Your task to perform on an android device: Go to ESPN.com Image 0: 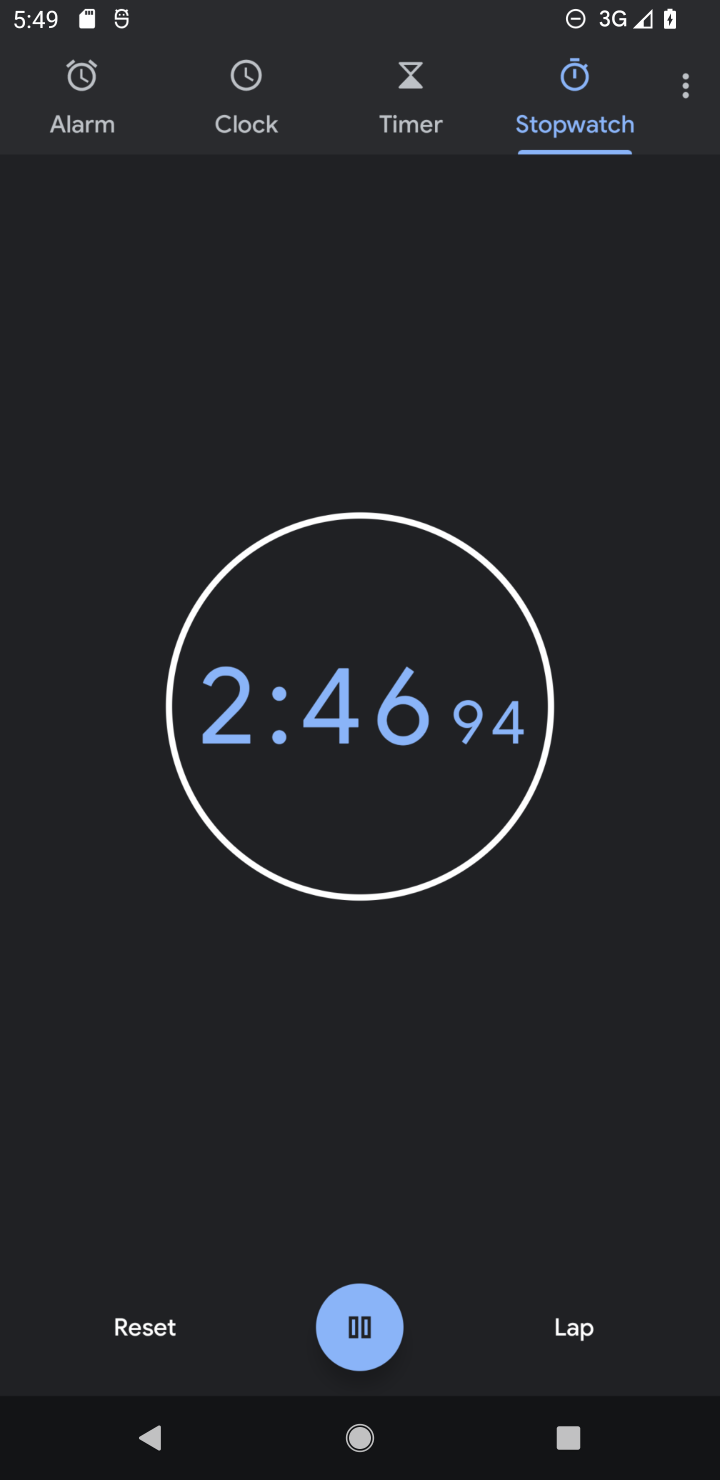
Step 0: drag from (469, 856) to (568, 472)
Your task to perform on an android device: Go to ESPN.com Image 1: 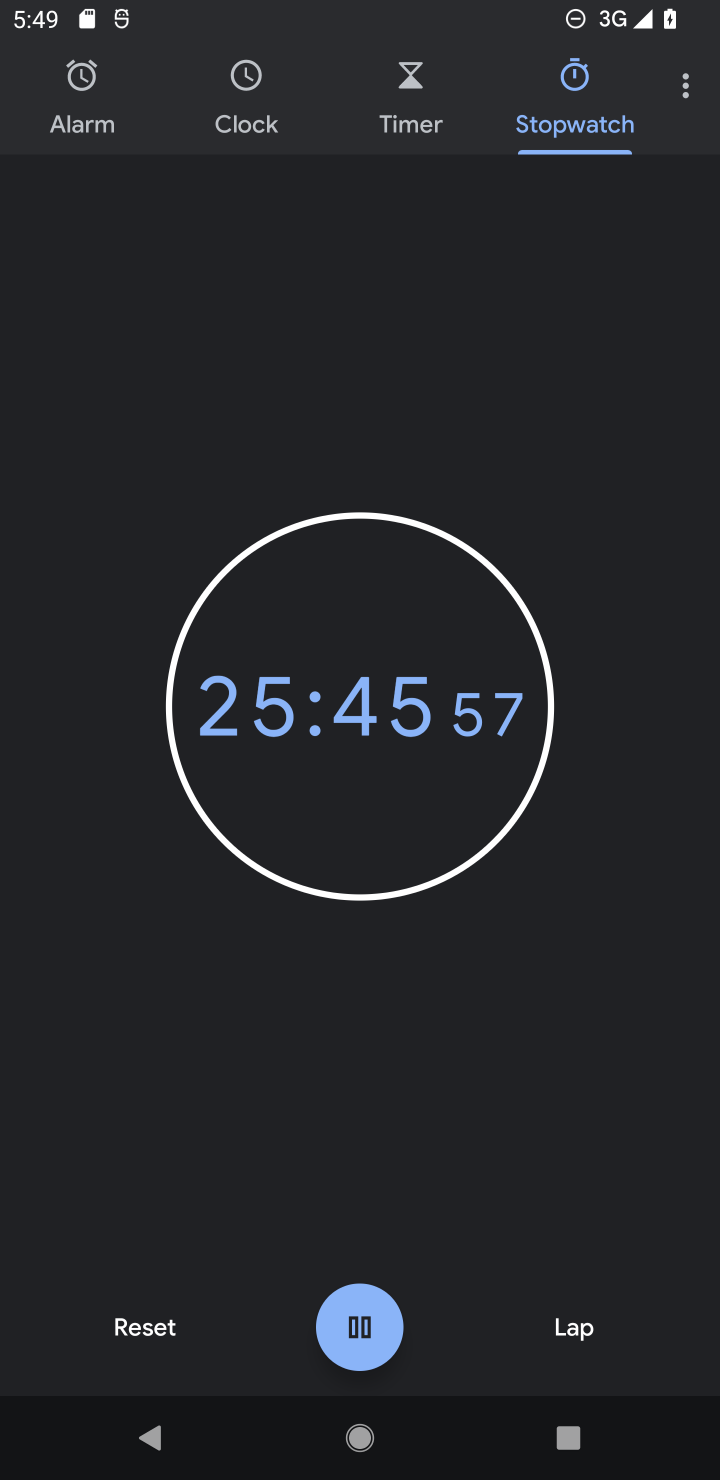
Step 1: press home button
Your task to perform on an android device: Go to ESPN.com Image 2: 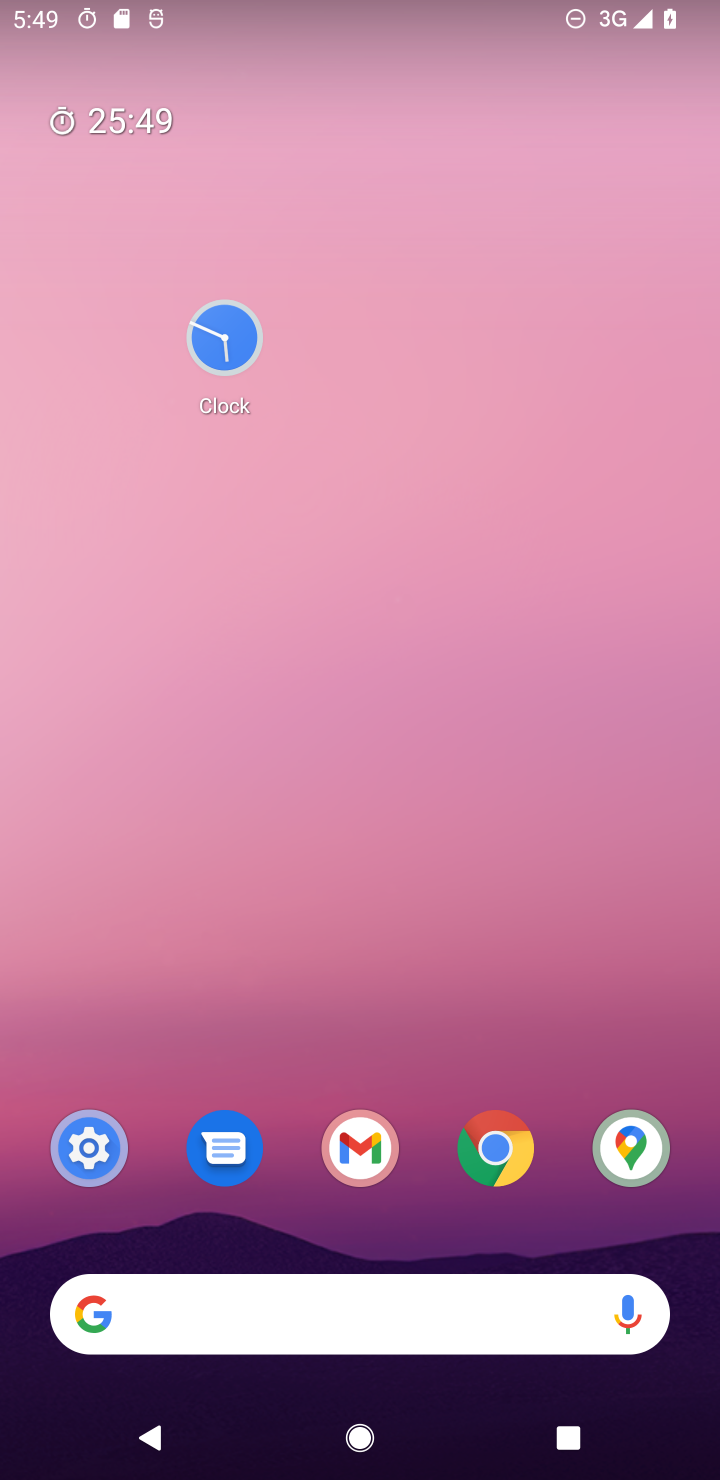
Step 2: drag from (317, 1118) to (332, 457)
Your task to perform on an android device: Go to ESPN.com Image 3: 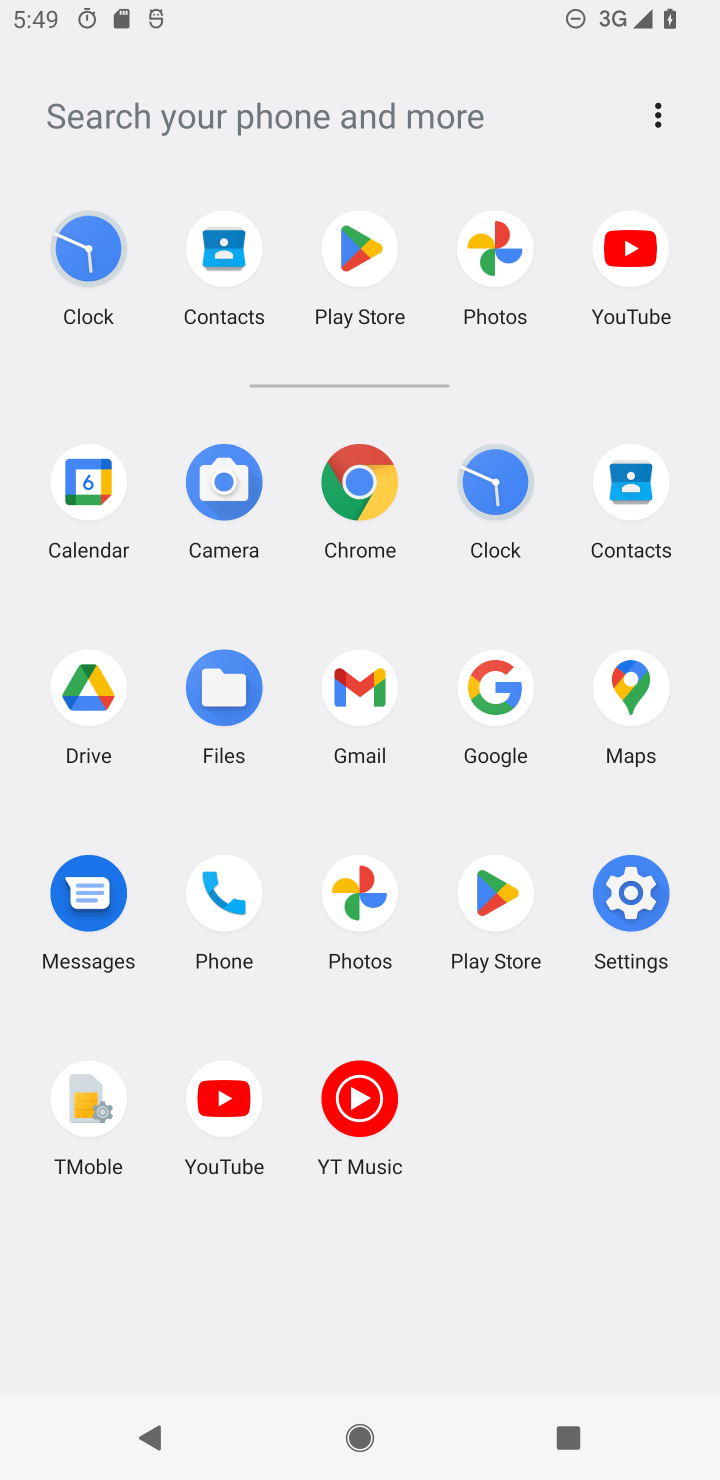
Step 3: drag from (483, 1216) to (585, 419)
Your task to perform on an android device: Go to ESPN.com Image 4: 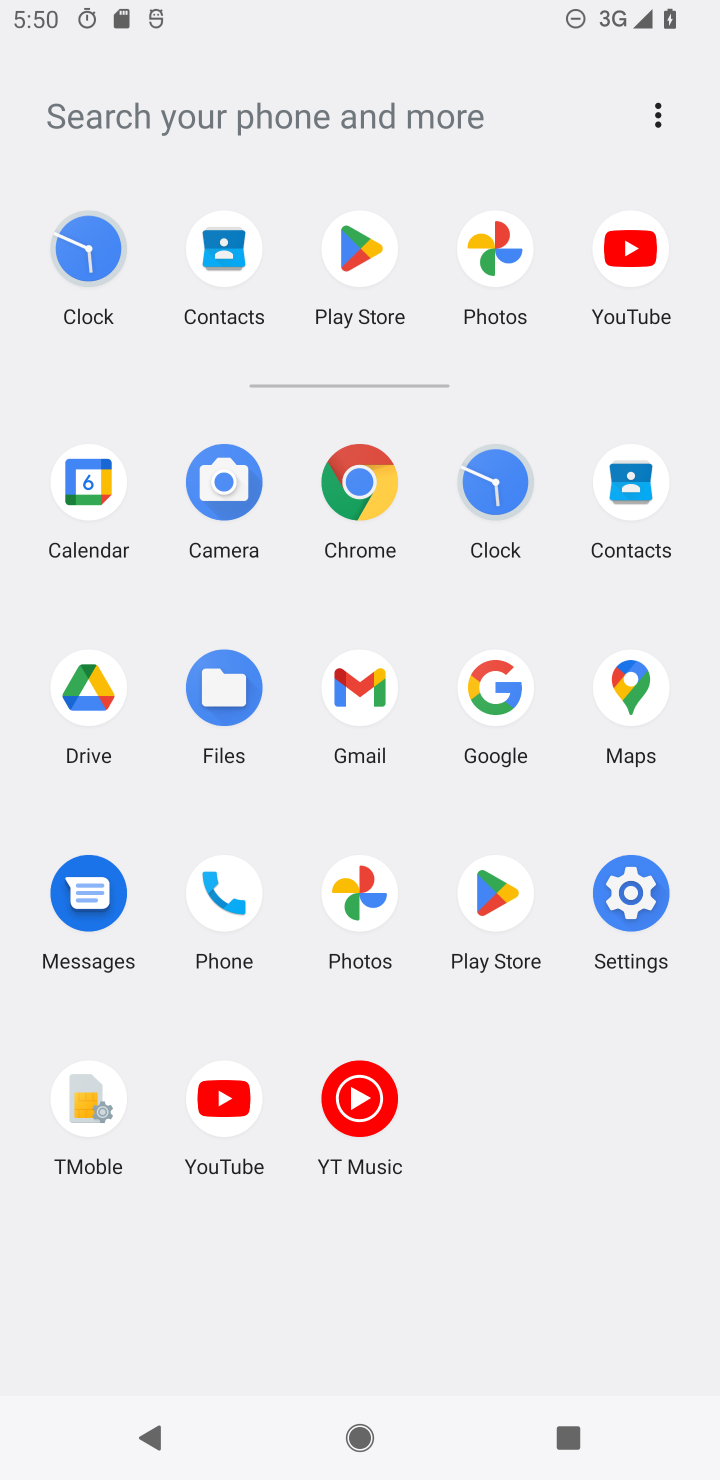
Step 4: click (356, 479)
Your task to perform on an android device: Go to ESPN.com Image 5: 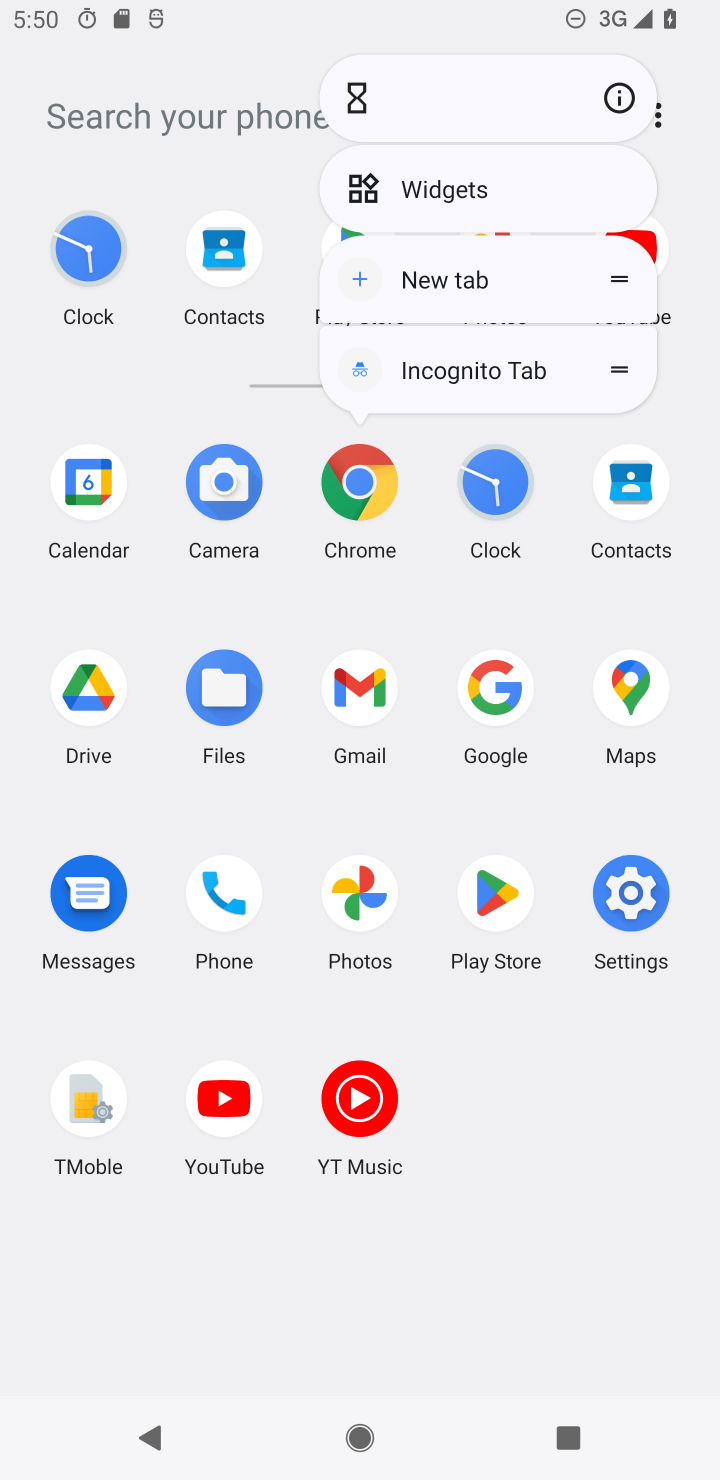
Step 5: click (617, 96)
Your task to perform on an android device: Go to ESPN.com Image 6: 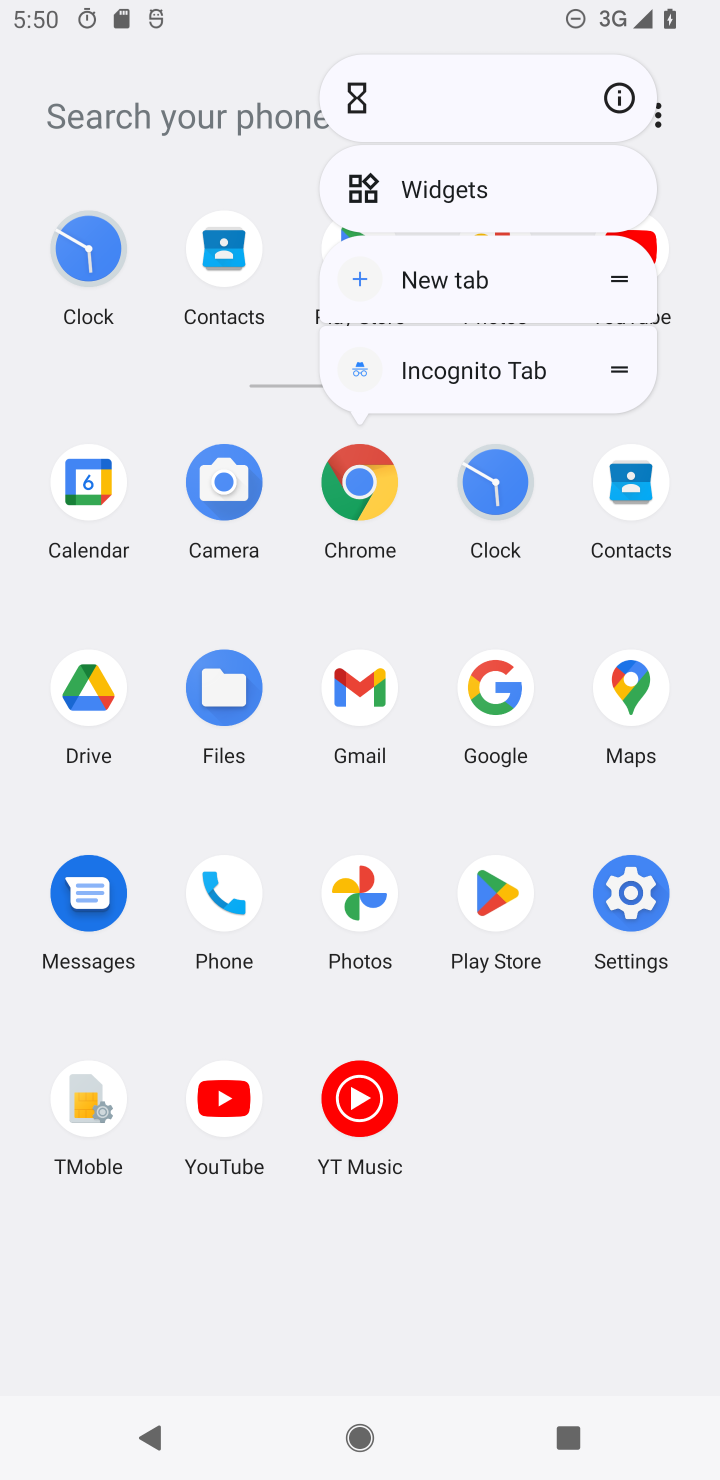
Step 6: click (358, 486)
Your task to perform on an android device: Go to ESPN.com Image 7: 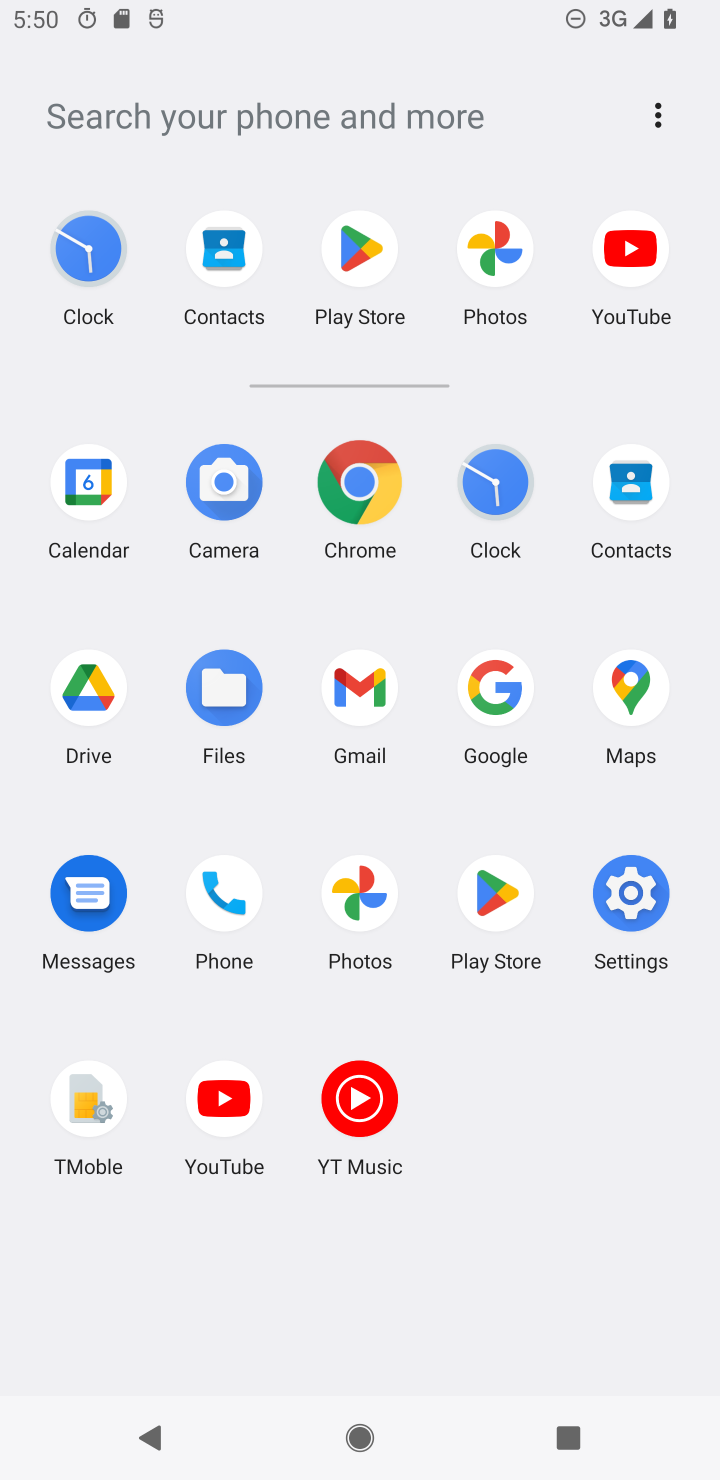
Step 7: click (366, 483)
Your task to perform on an android device: Go to ESPN.com Image 8: 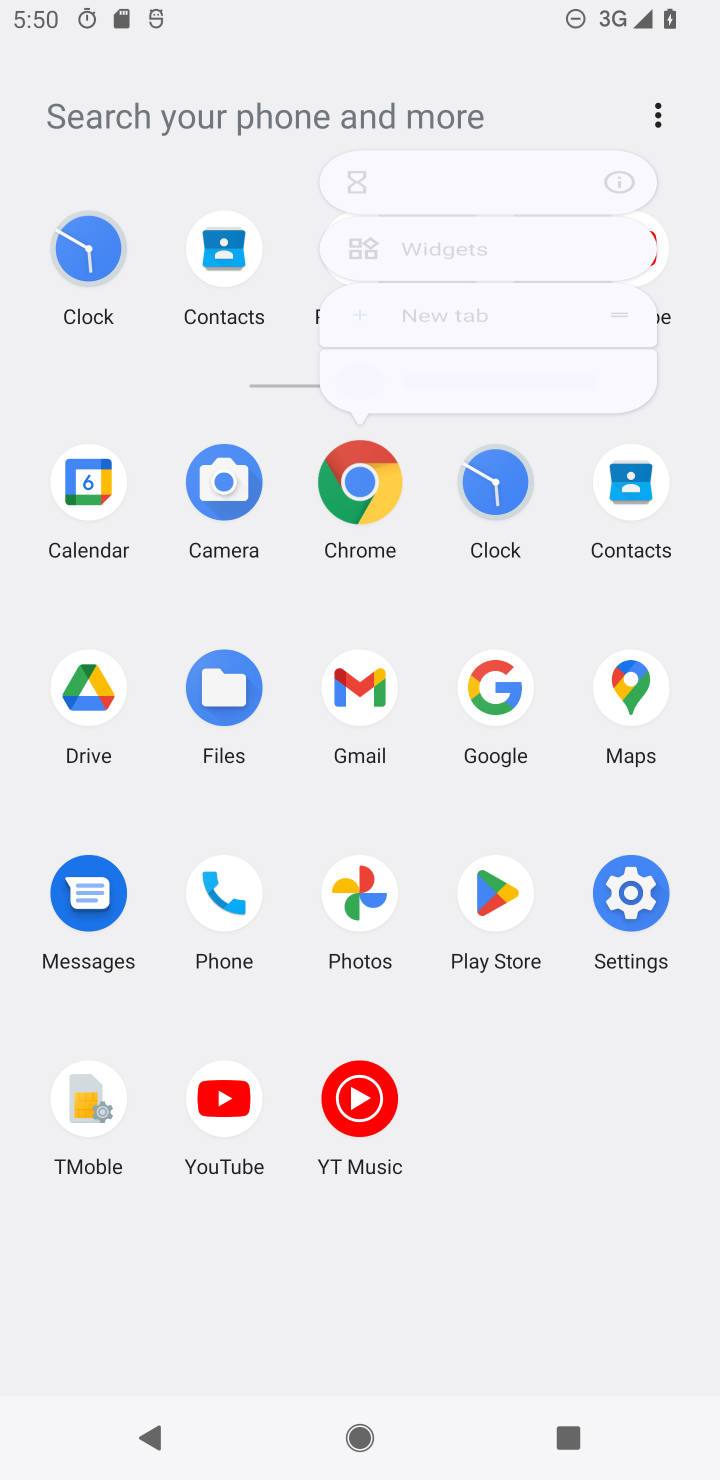
Step 8: click (366, 483)
Your task to perform on an android device: Go to ESPN.com Image 9: 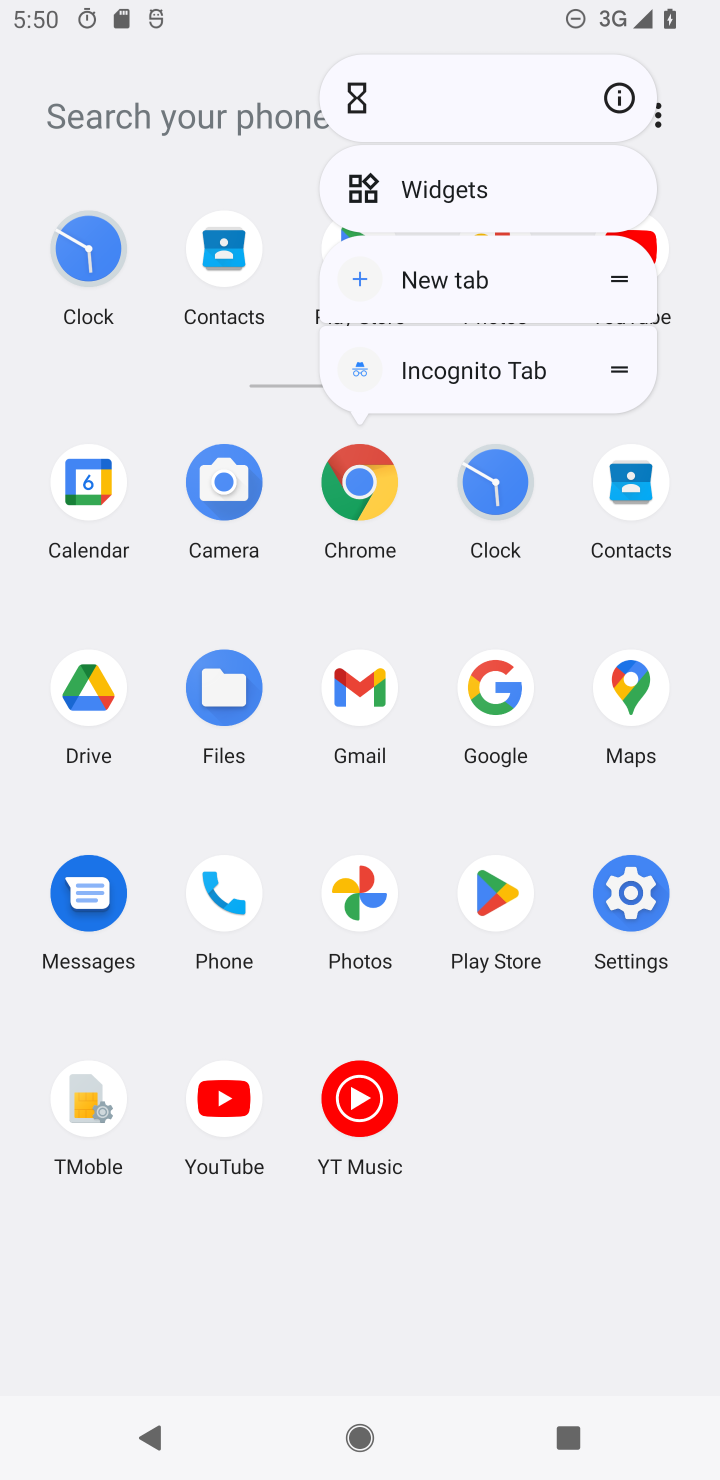
Step 9: click (369, 486)
Your task to perform on an android device: Go to ESPN.com Image 10: 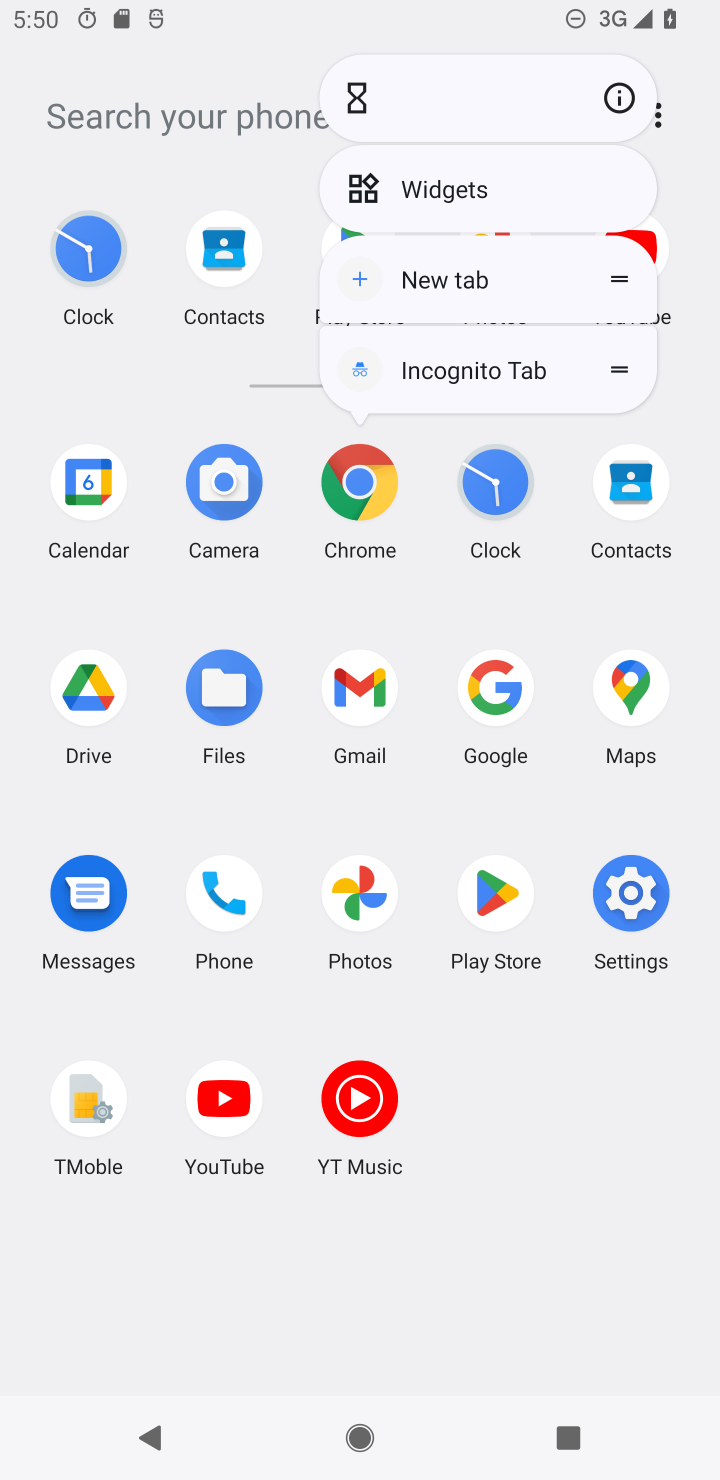
Step 10: click (618, 115)
Your task to perform on an android device: Go to ESPN.com Image 11: 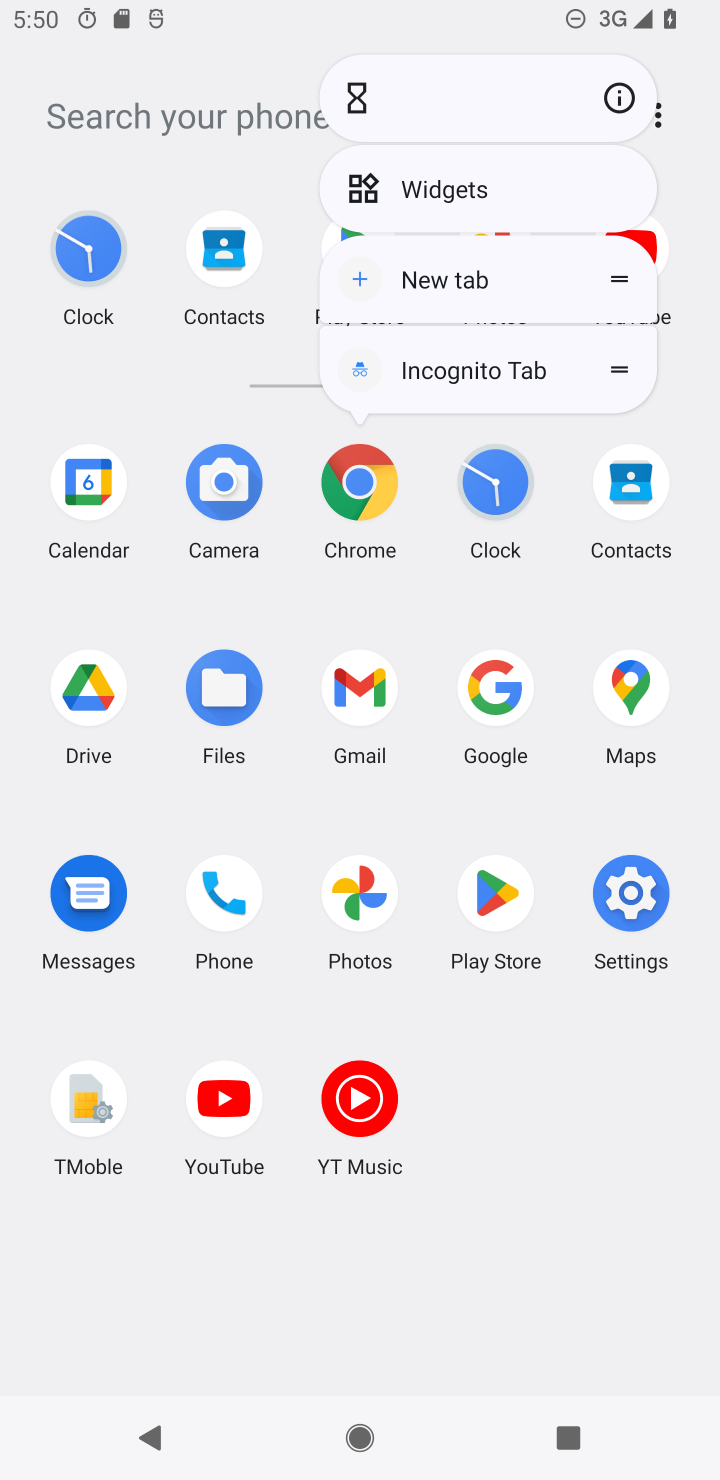
Step 11: click (364, 466)
Your task to perform on an android device: Go to ESPN.com Image 12: 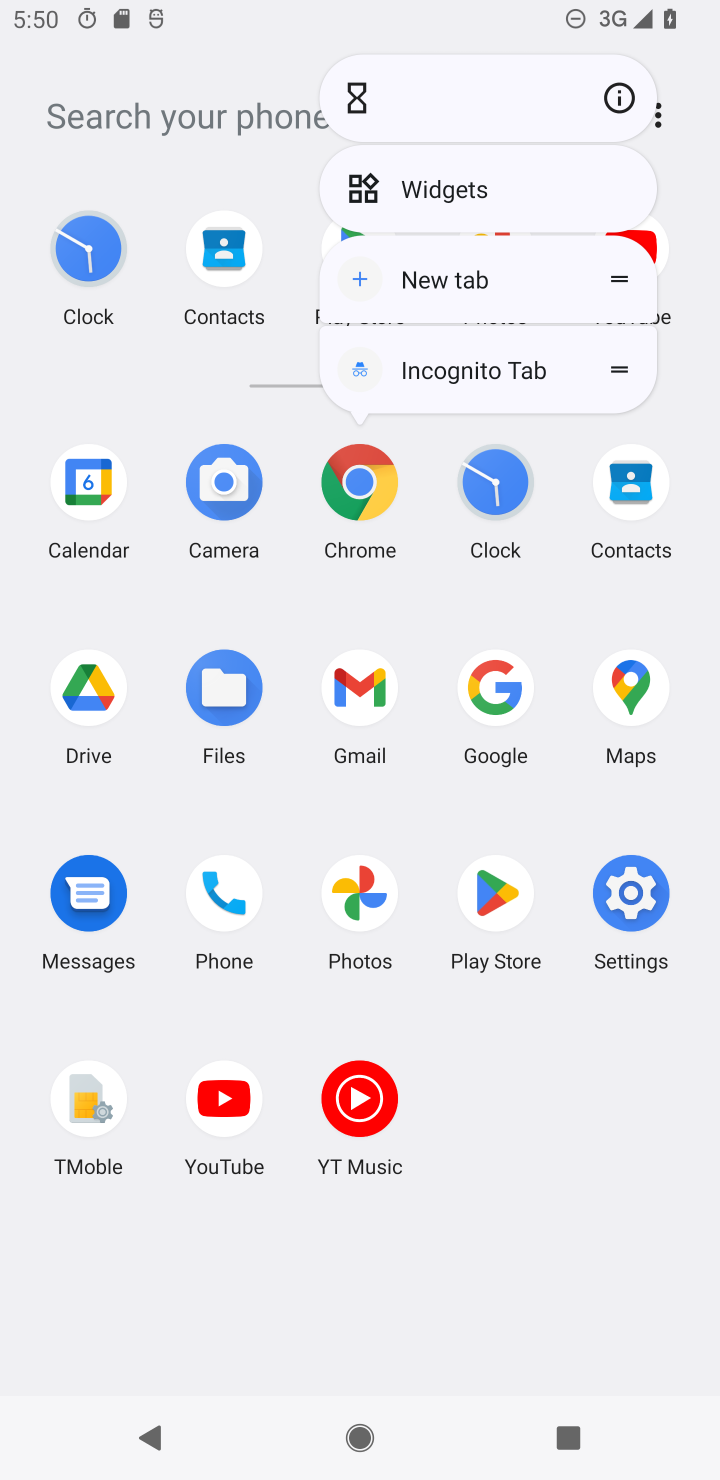
Step 12: click (619, 101)
Your task to perform on an android device: Go to ESPN.com Image 13: 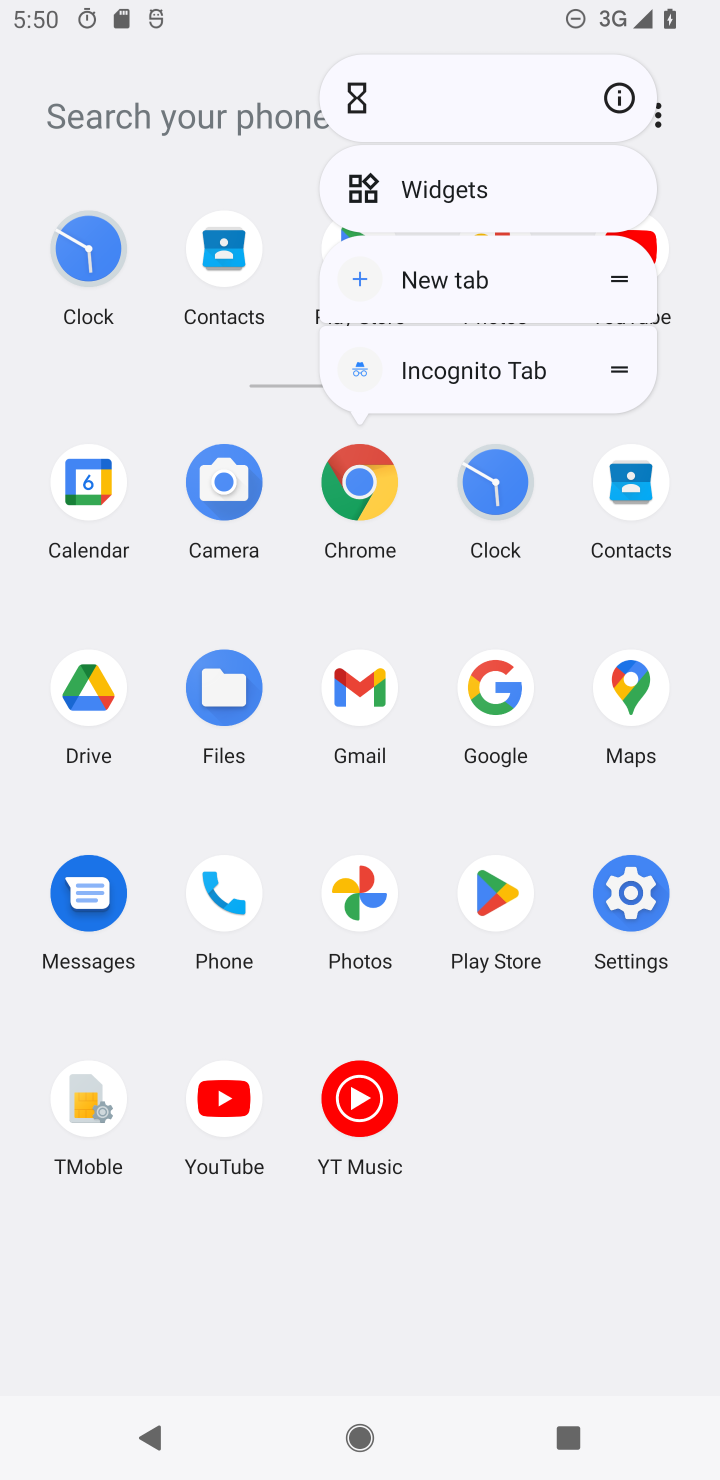
Step 13: click (345, 465)
Your task to perform on an android device: Go to ESPN.com Image 14: 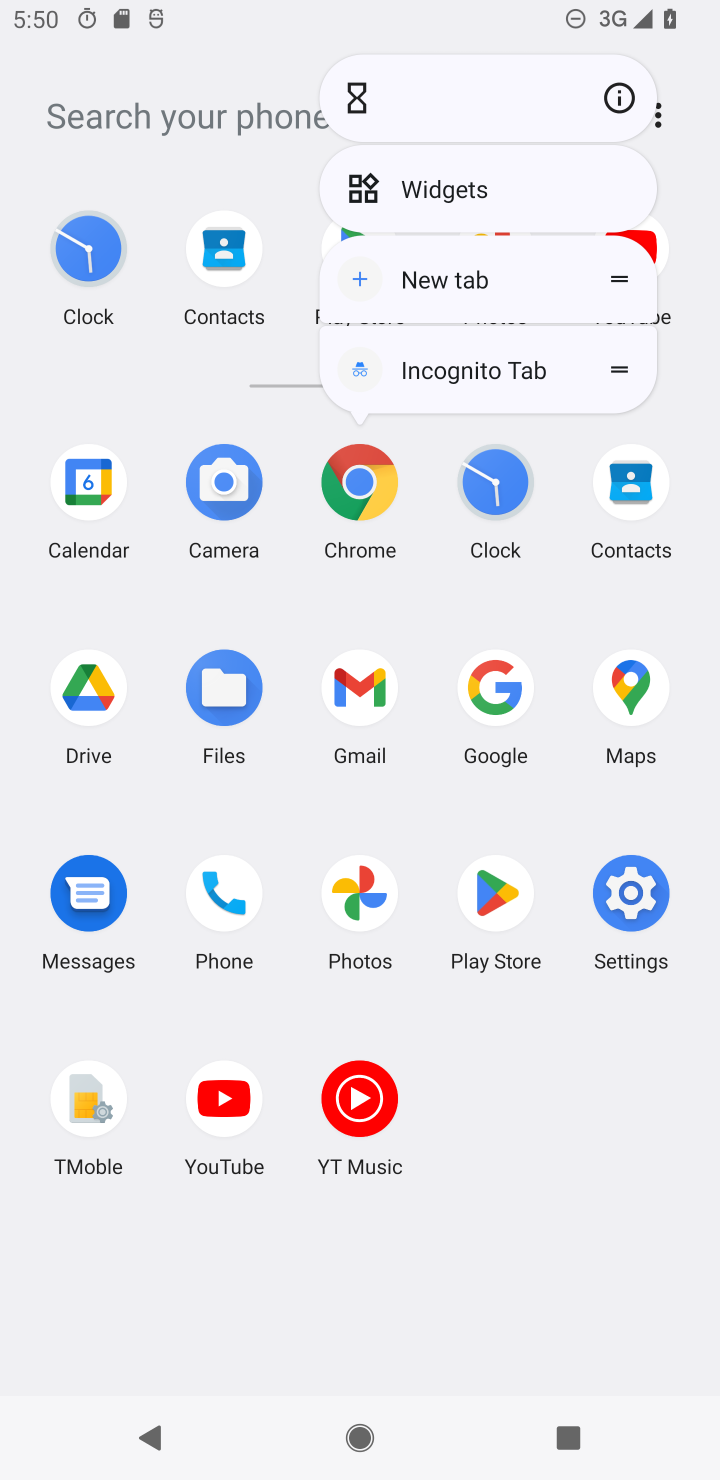
Step 14: click (373, 487)
Your task to perform on an android device: Go to ESPN.com Image 15: 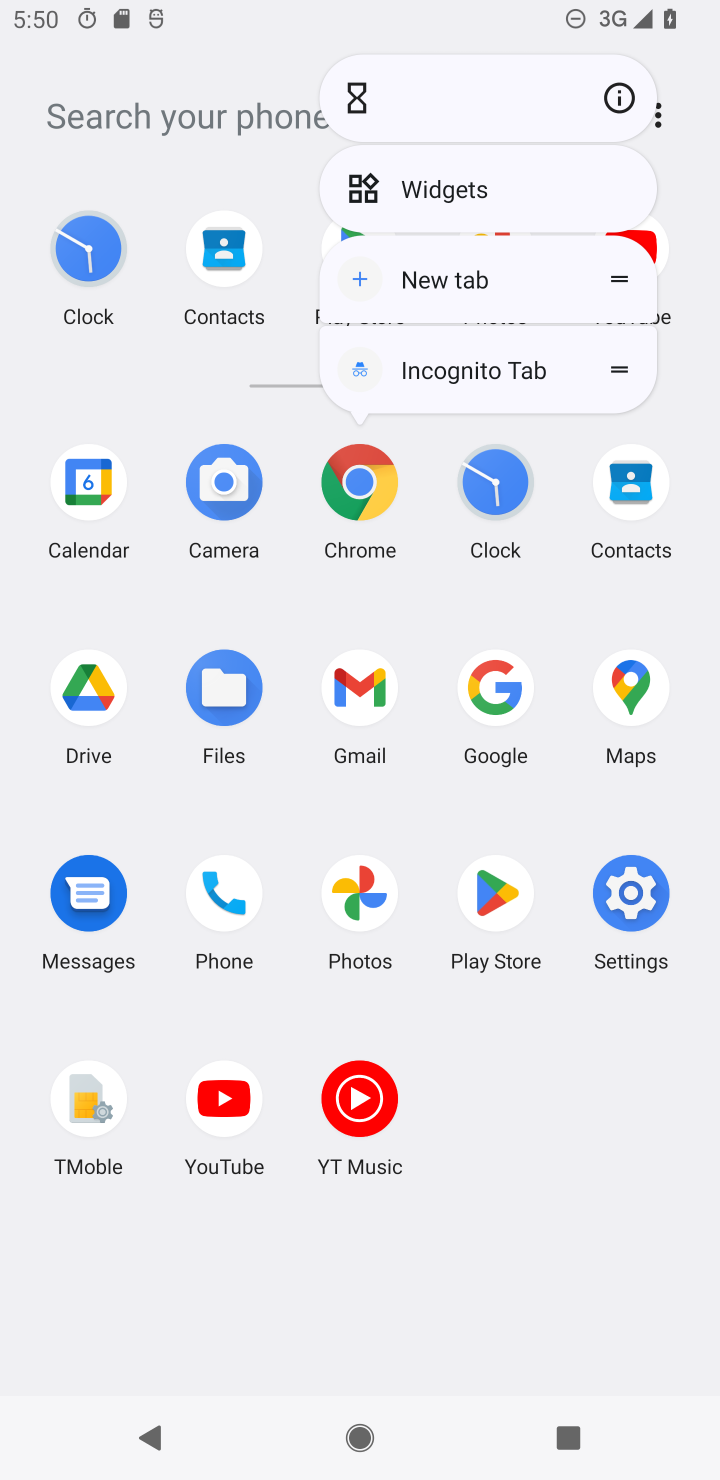
Step 15: click (336, 487)
Your task to perform on an android device: Go to ESPN.com Image 16: 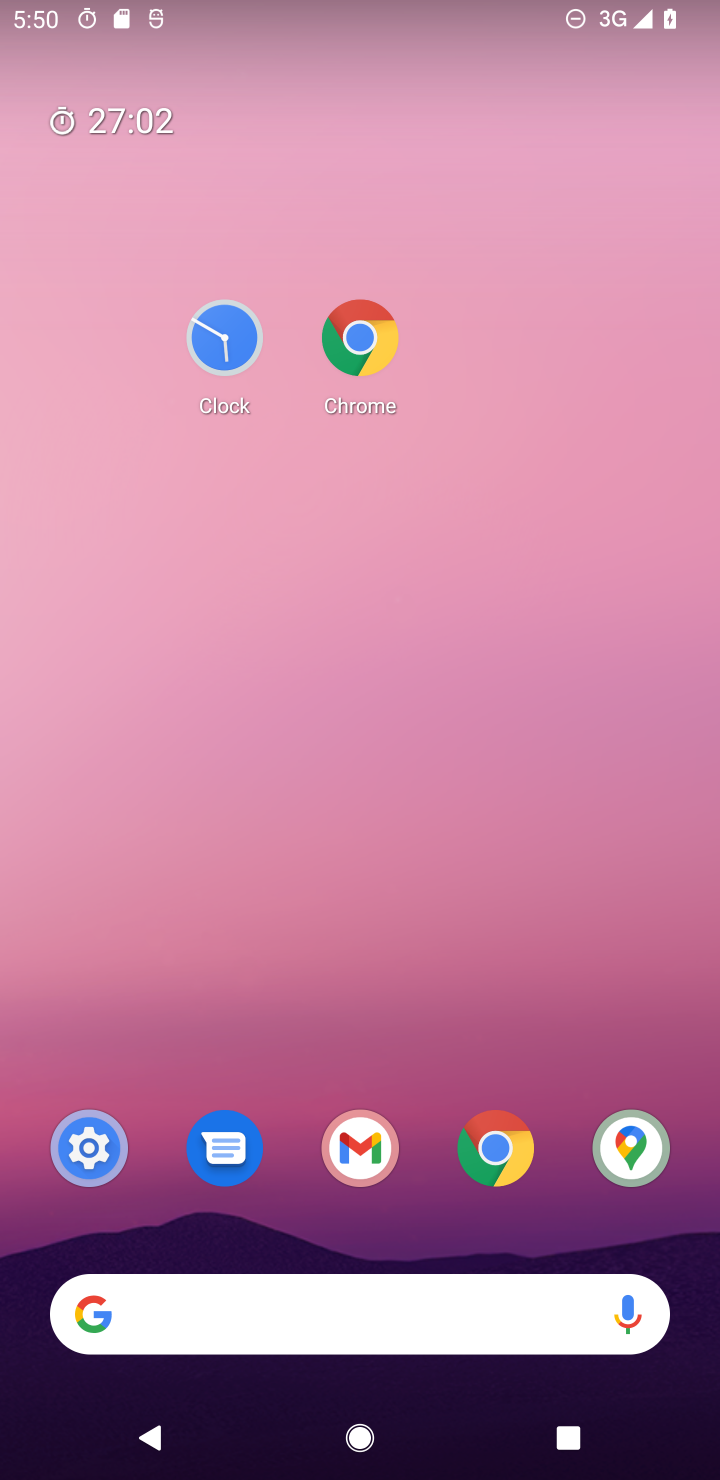
Step 16: click (350, 318)
Your task to perform on an android device: Go to ESPN.com Image 17: 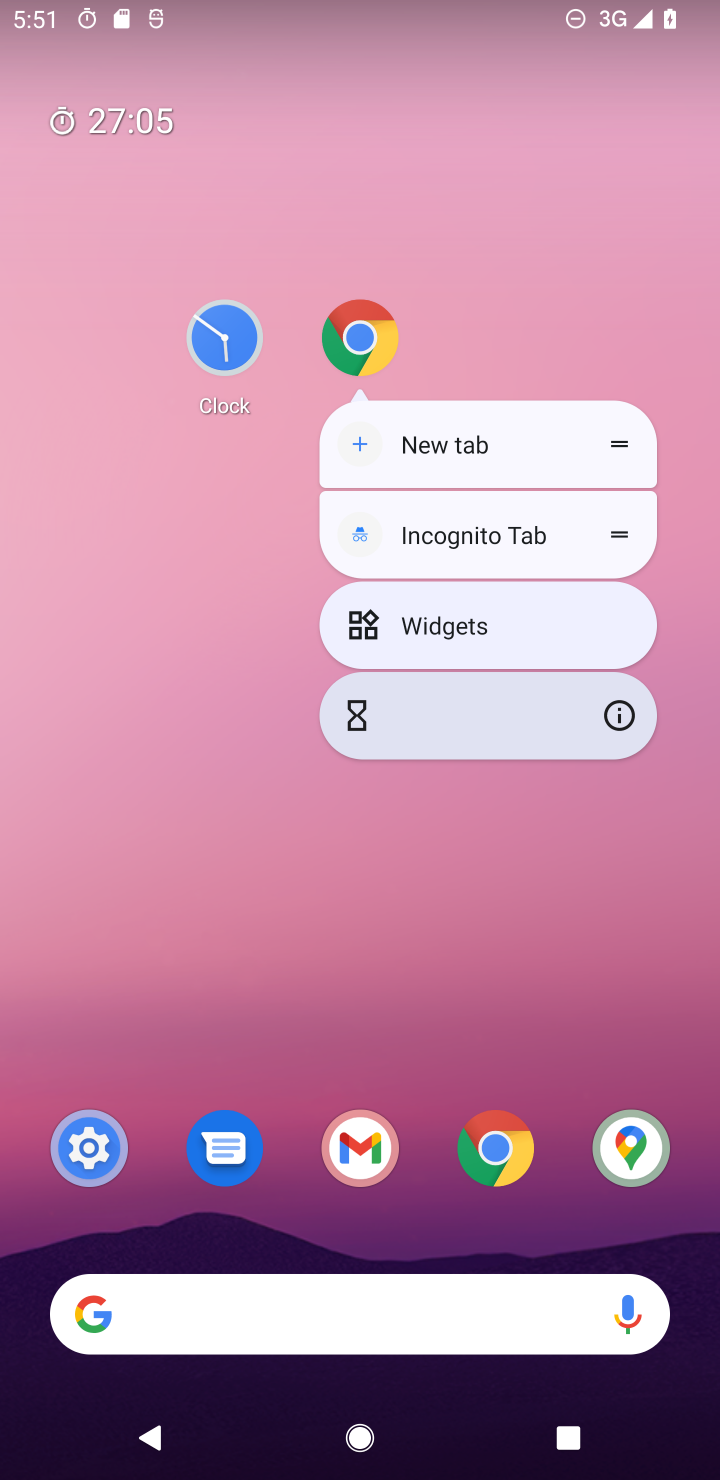
Step 17: click (623, 723)
Your task to perform on an android device: Go to ESPN.com Image 18: 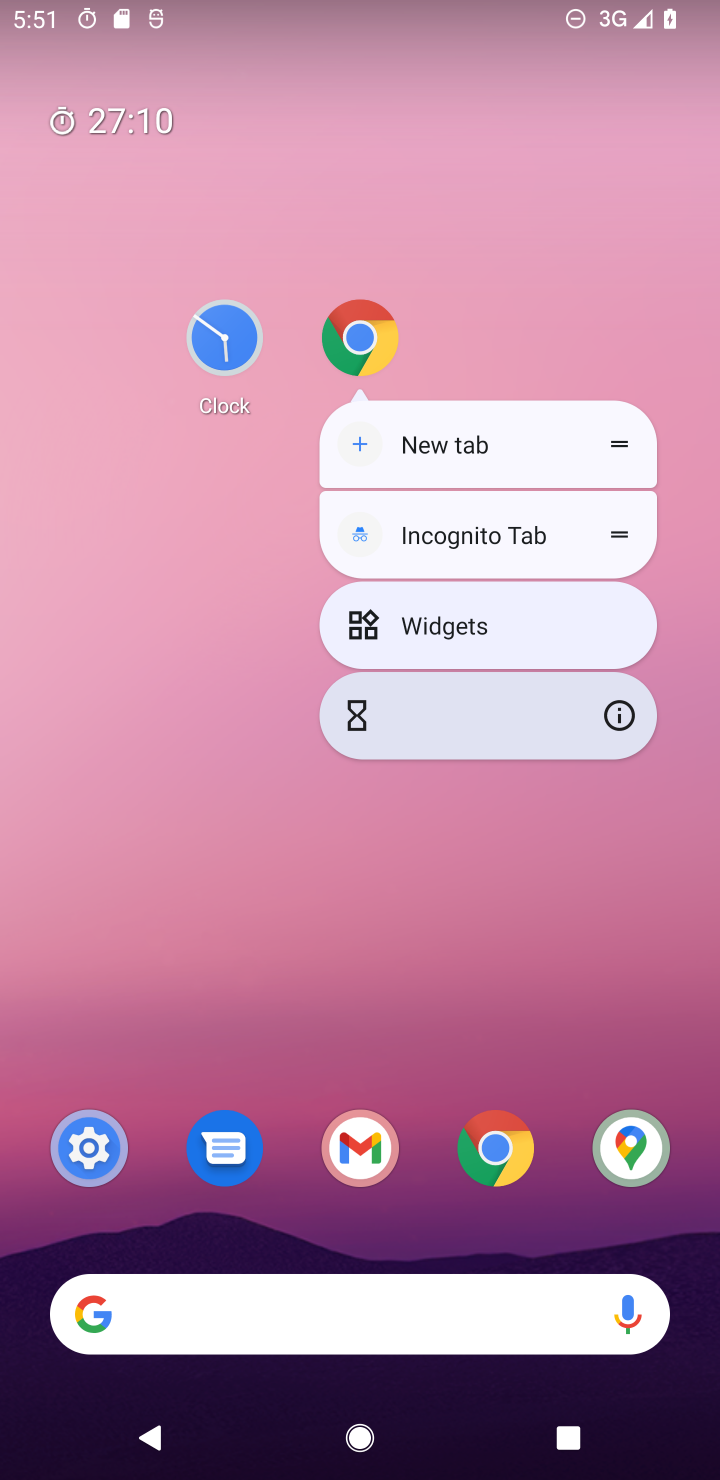
Step 18: click (619, 729)
Your task to perform on an android device: Go to ESPN.com Image 19: 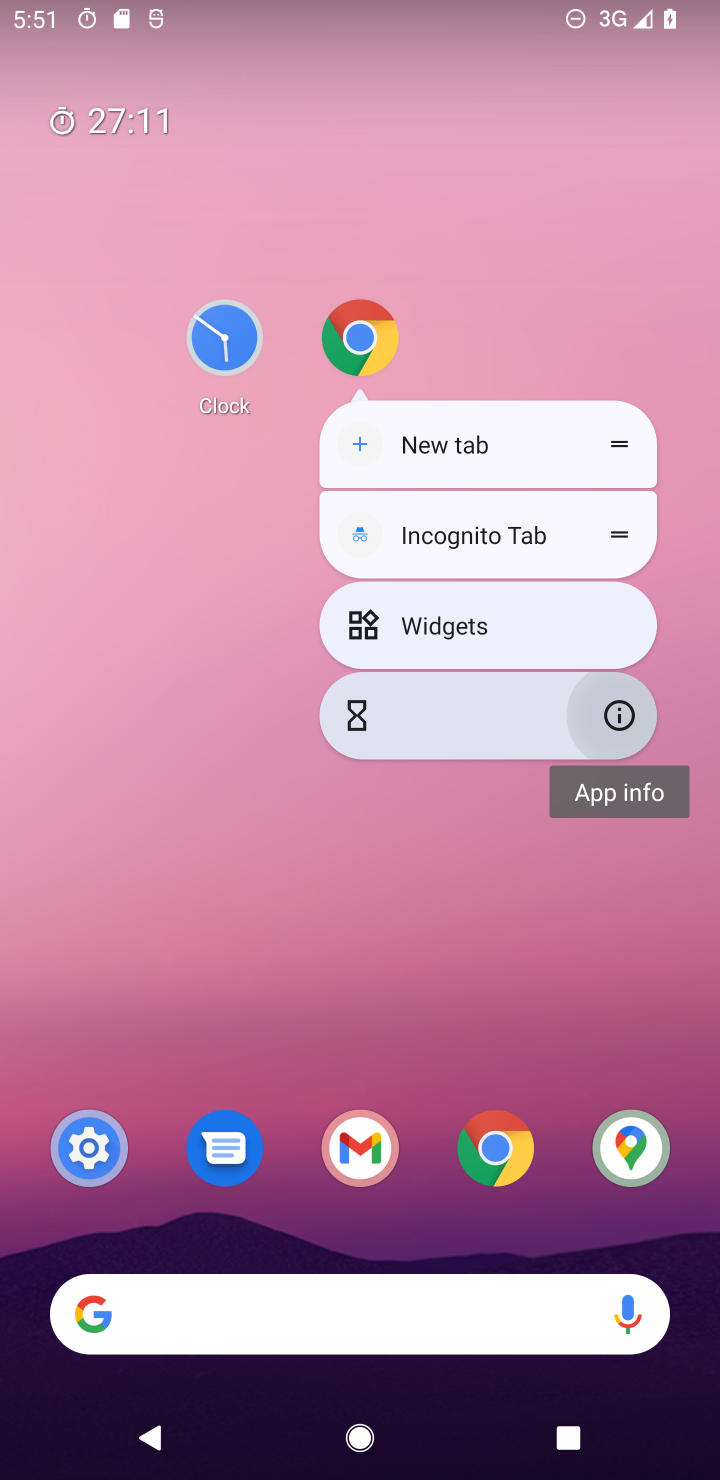
Step 19: click (593, 706)
Your task to perform on an android device: Go to ESPN.com Image 20: 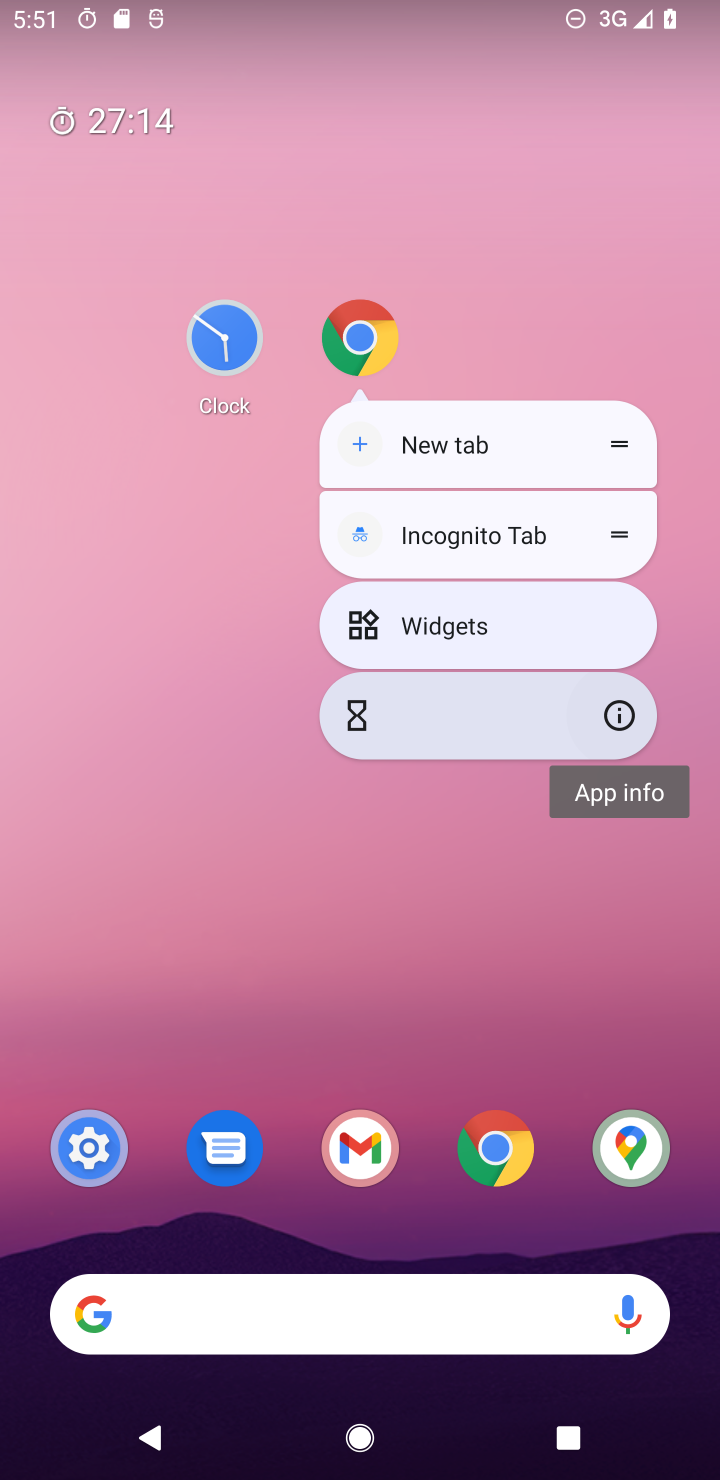
Step 20: click (627, 703)
Your task to perform on an android device: Go to ESPN.com Image 21: 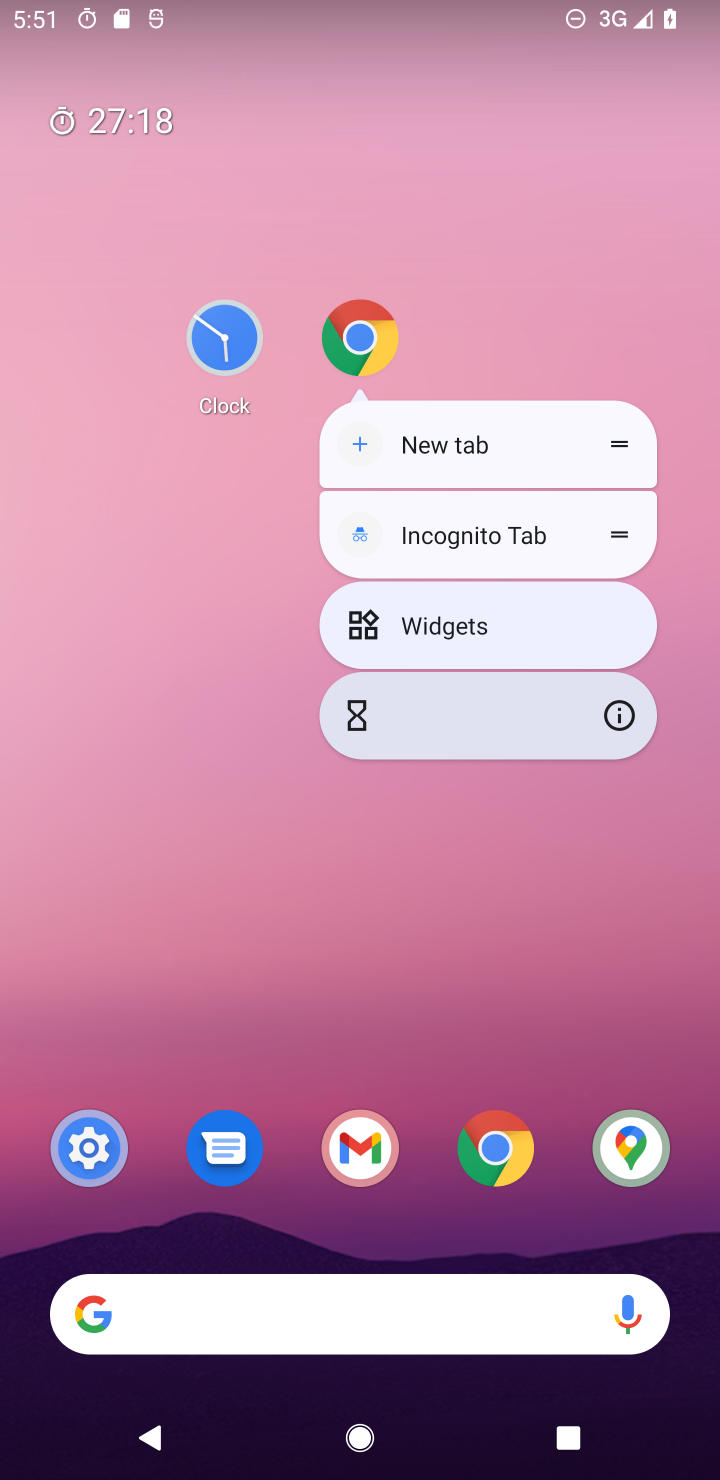
Step 21: click (368, 334)
Your task to perform on an android device: Go to ESPN.com Image 22: 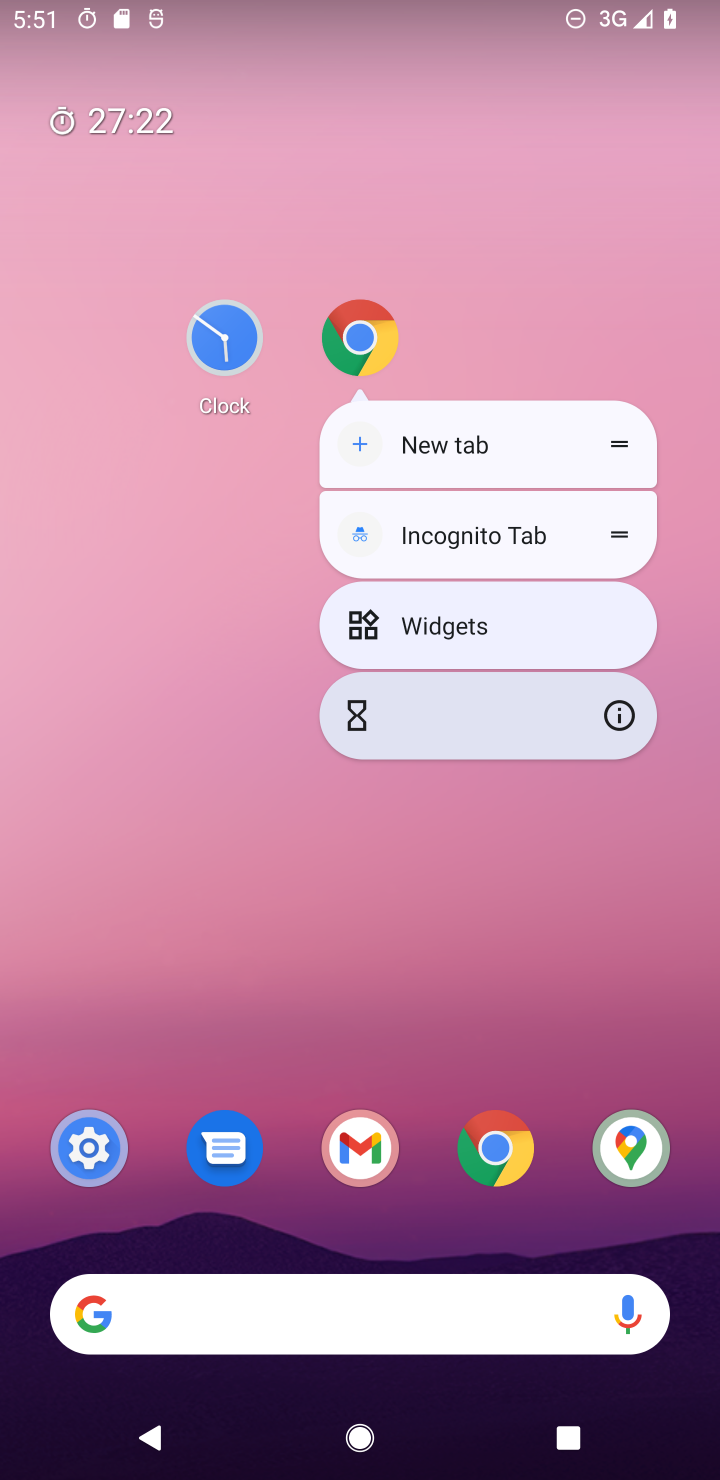
Step 22: click (349, 344)
Your task to perform on an android device: Go to ESPN.com Image 23: 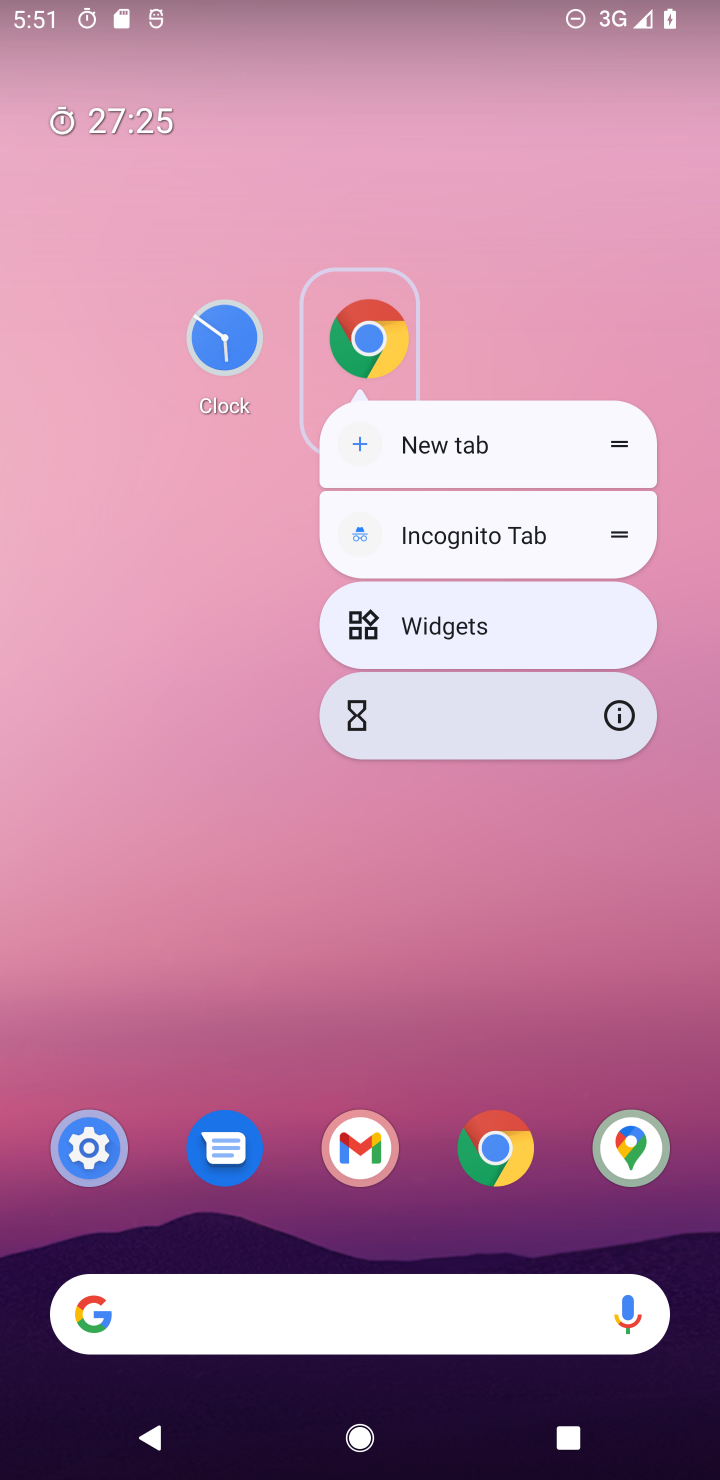
Step 23: click (364, 340)
Your task to perform on an android device: Go to ESPN.com Image 24: 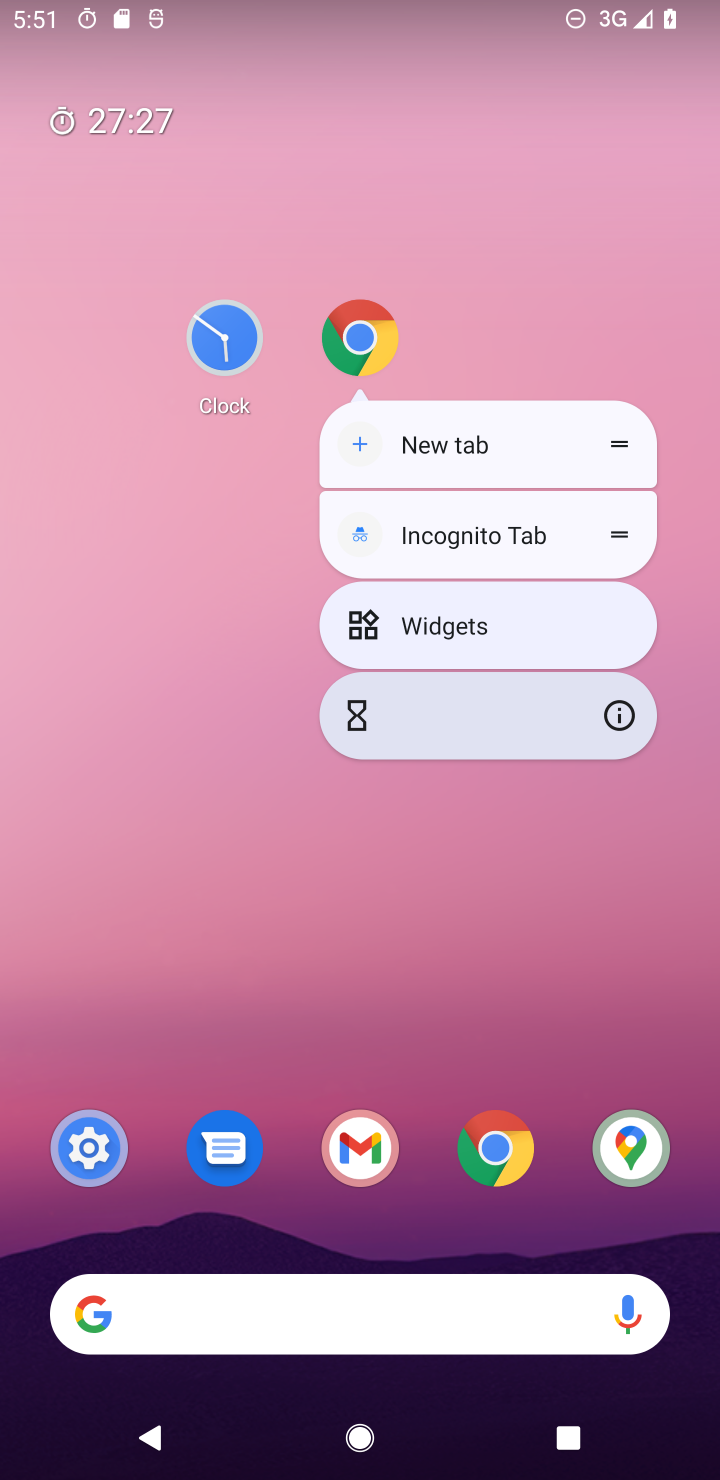
Step 24: click (355, 311)
Your task to perform on an android device: Go to ESPN.com Image 25: 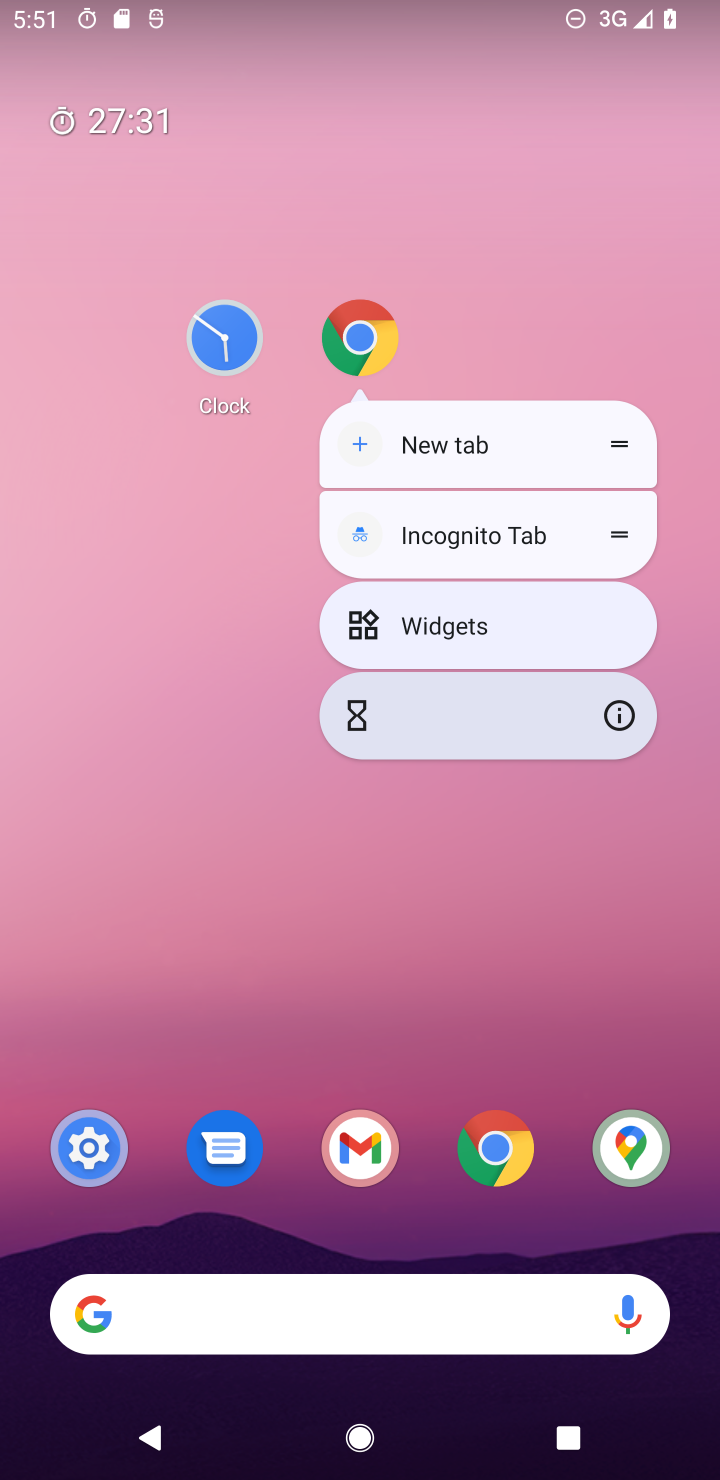
Step 25: click (373, 325)
Your task to perform on an android device: Go to ESPN.com Image 26: 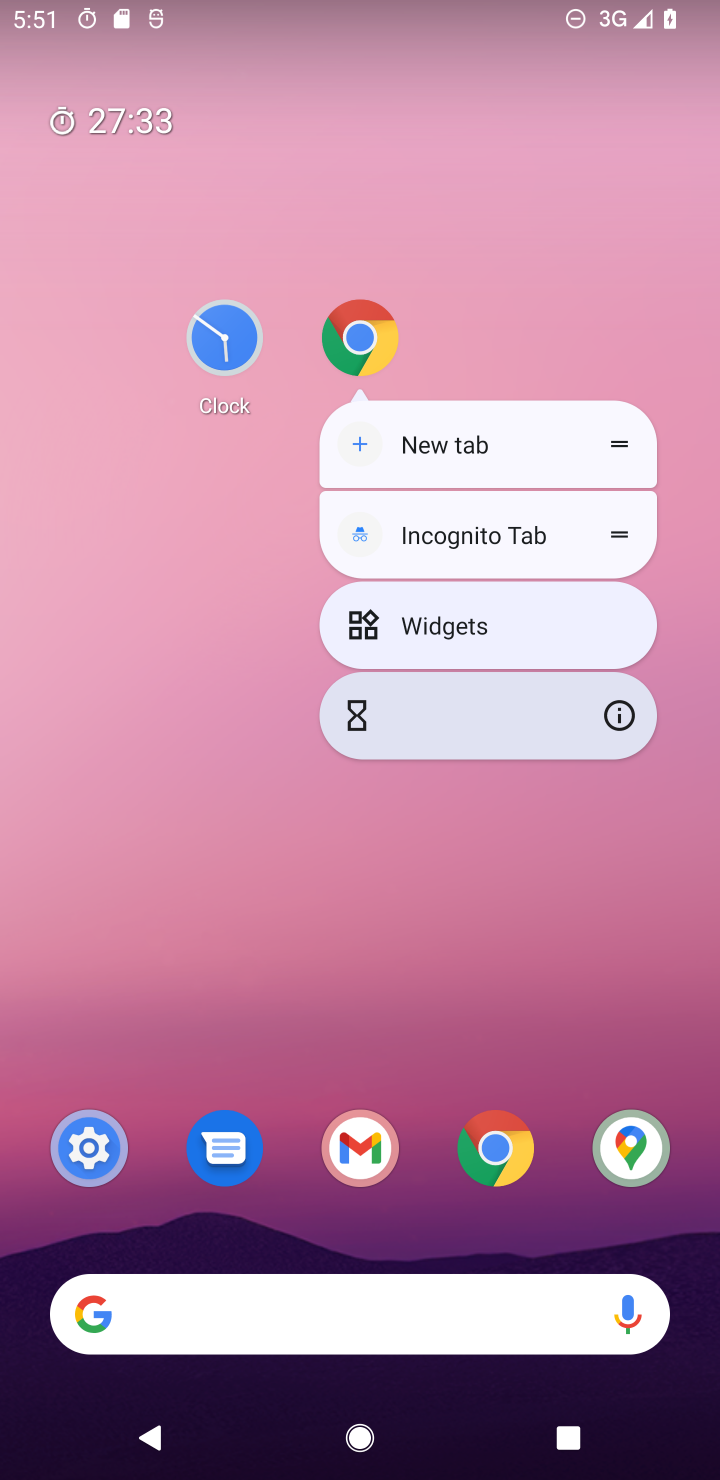
Step 26: click (360, 331)
Your task to perform on an android device: Go to ESPN.com Image 27: 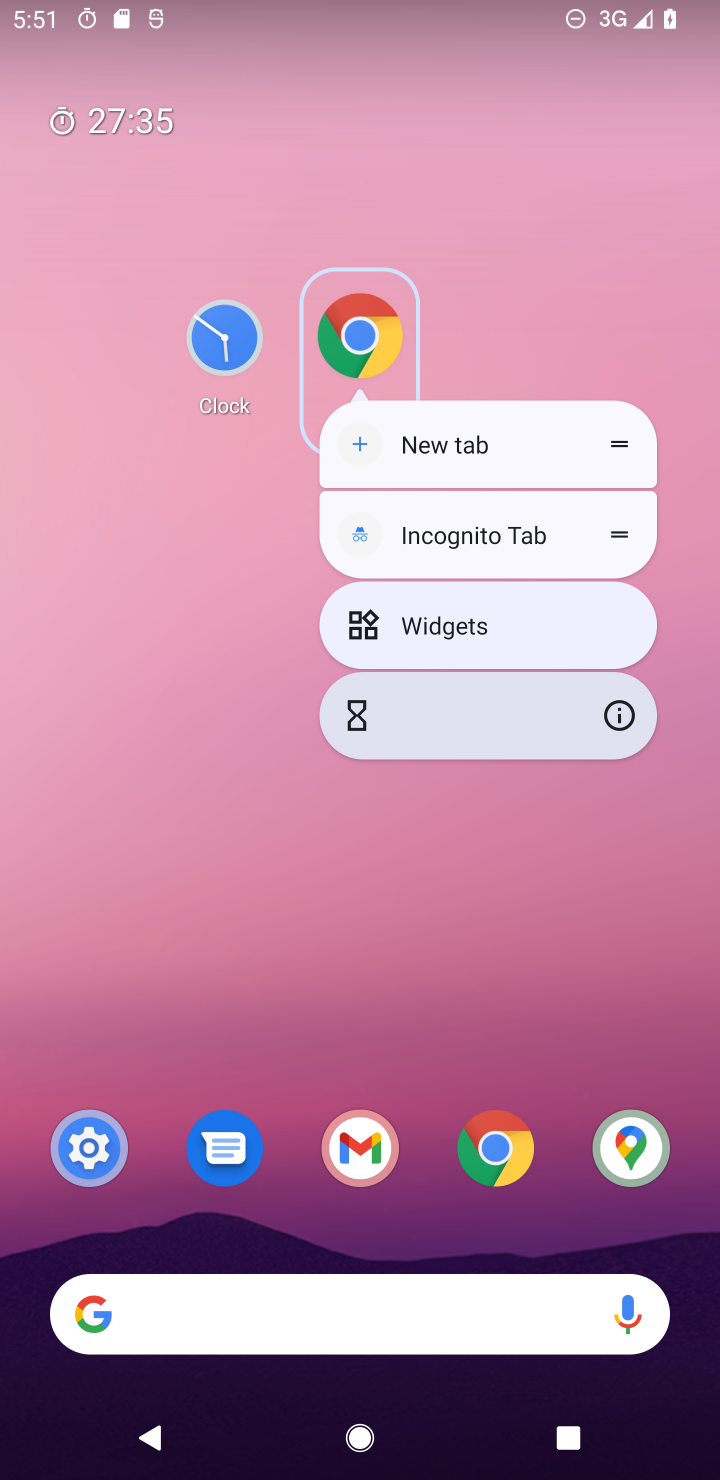
Step 27: click (382, 355)
Your task to perform on an android device: Go to ESPN.com Image 28: 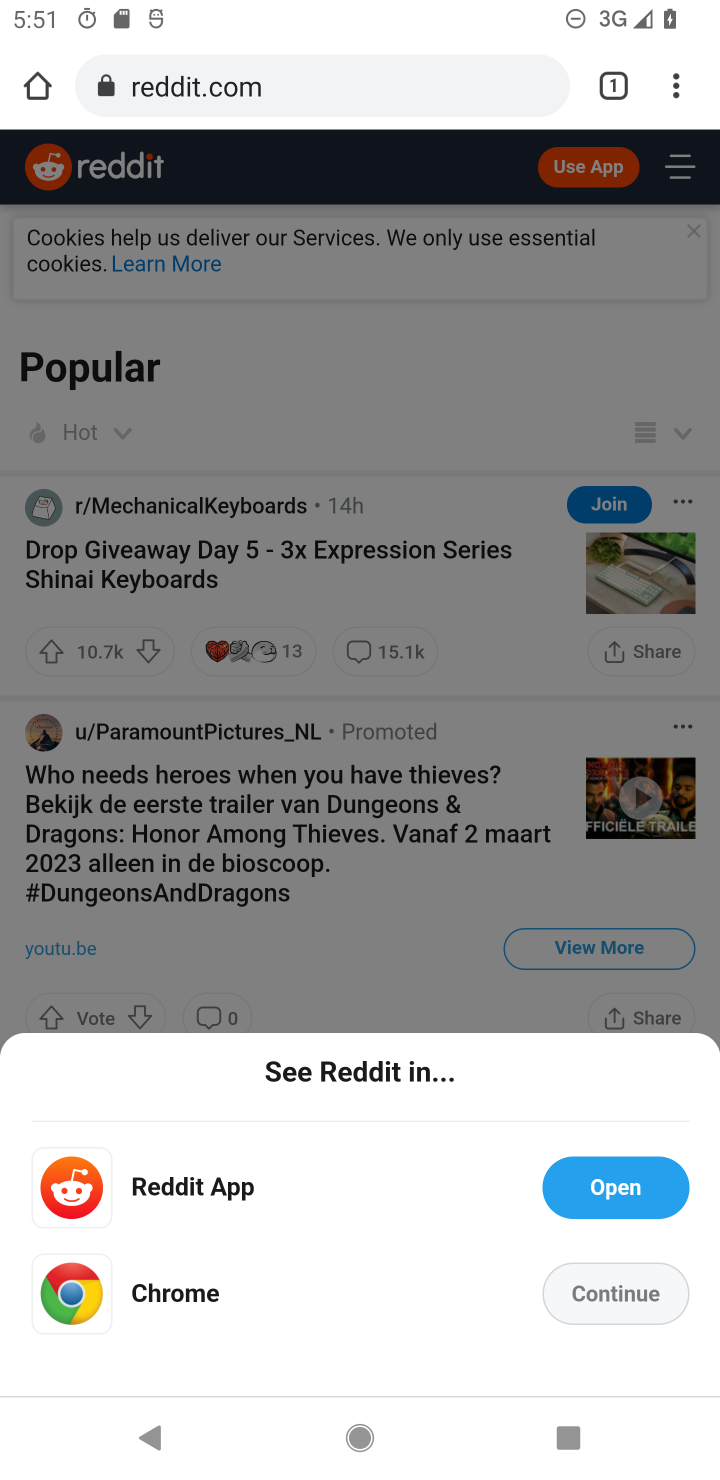
Step 28: click (253, 91)
Your task to perform on an android device: Go to ESPN.com Image 29: 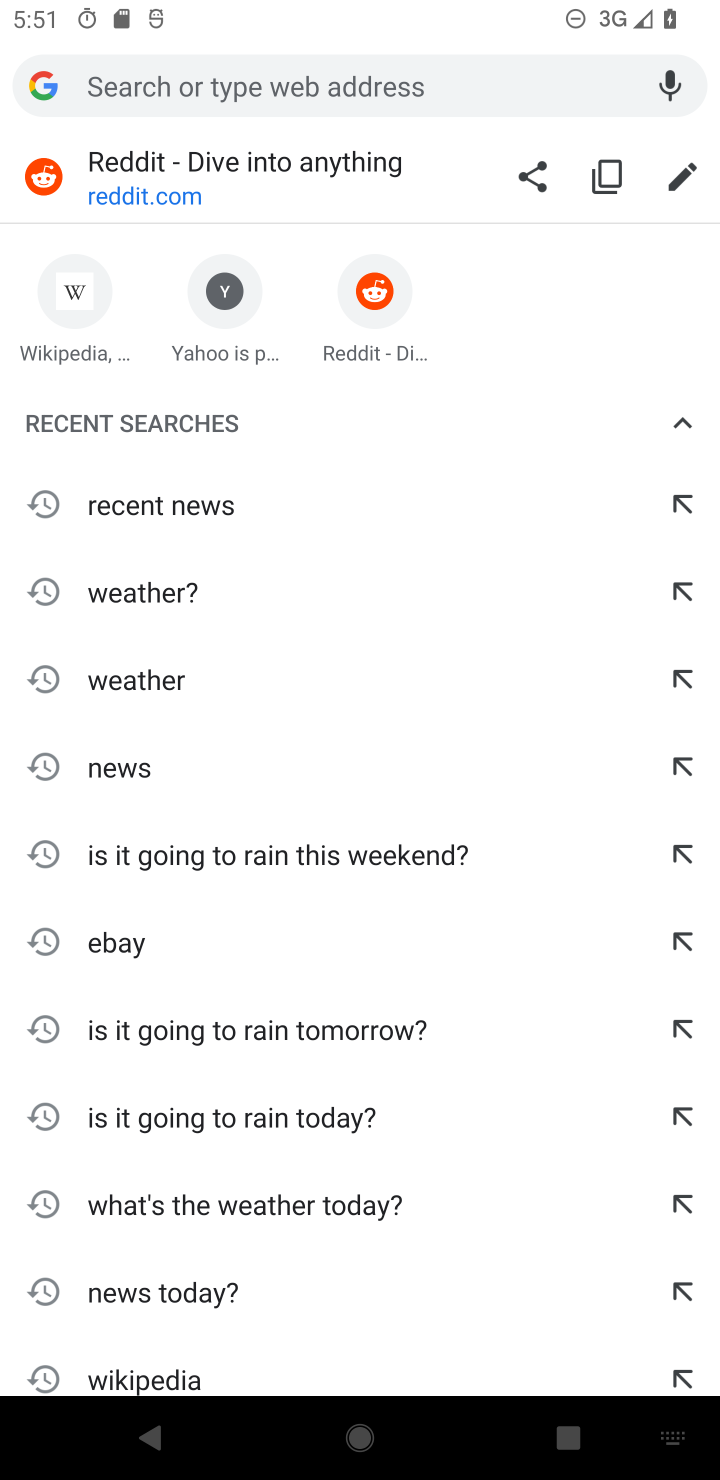
Step 29: type "espn.com"
Your task to perform on an android device: Go to ESPN.com Image 30: 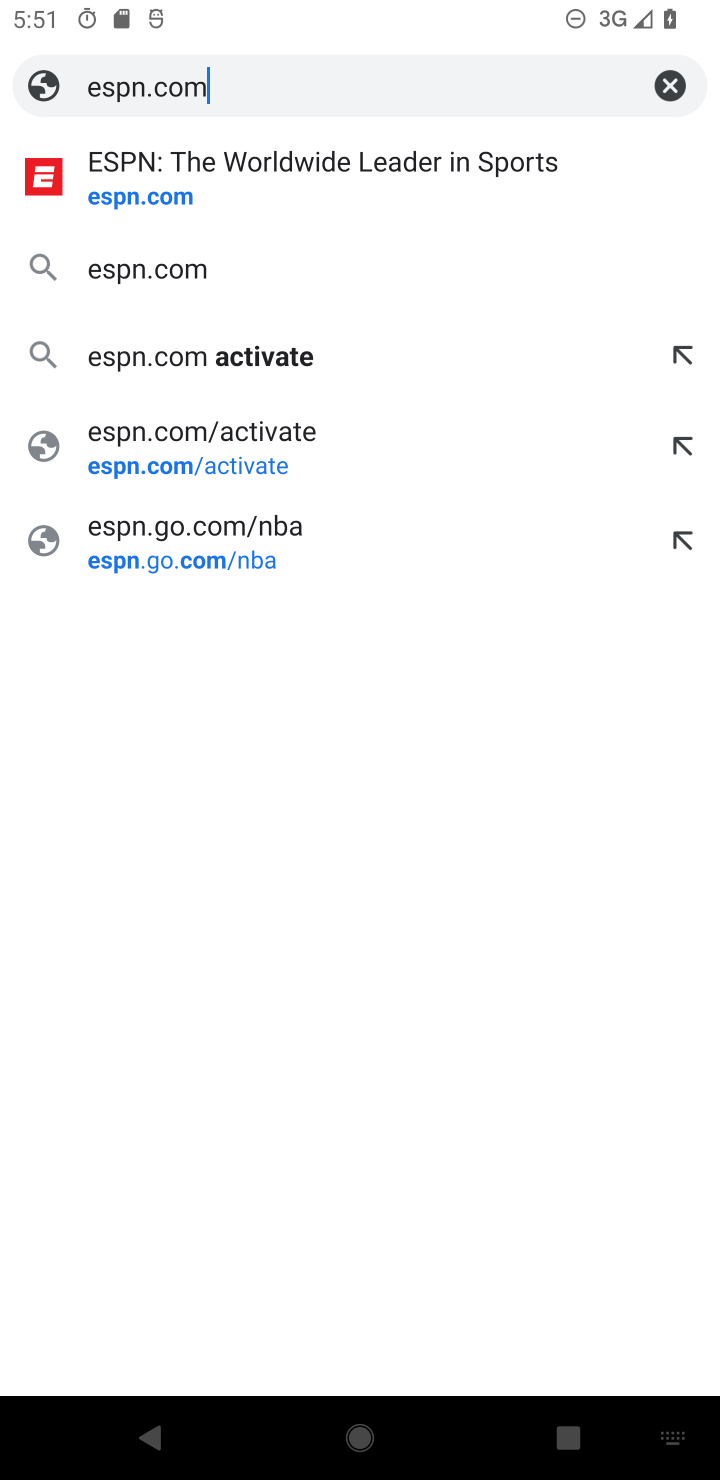
Step 30: click (130, 154)
Your task to perform on an android device: Go to ESPN.com Image 31: 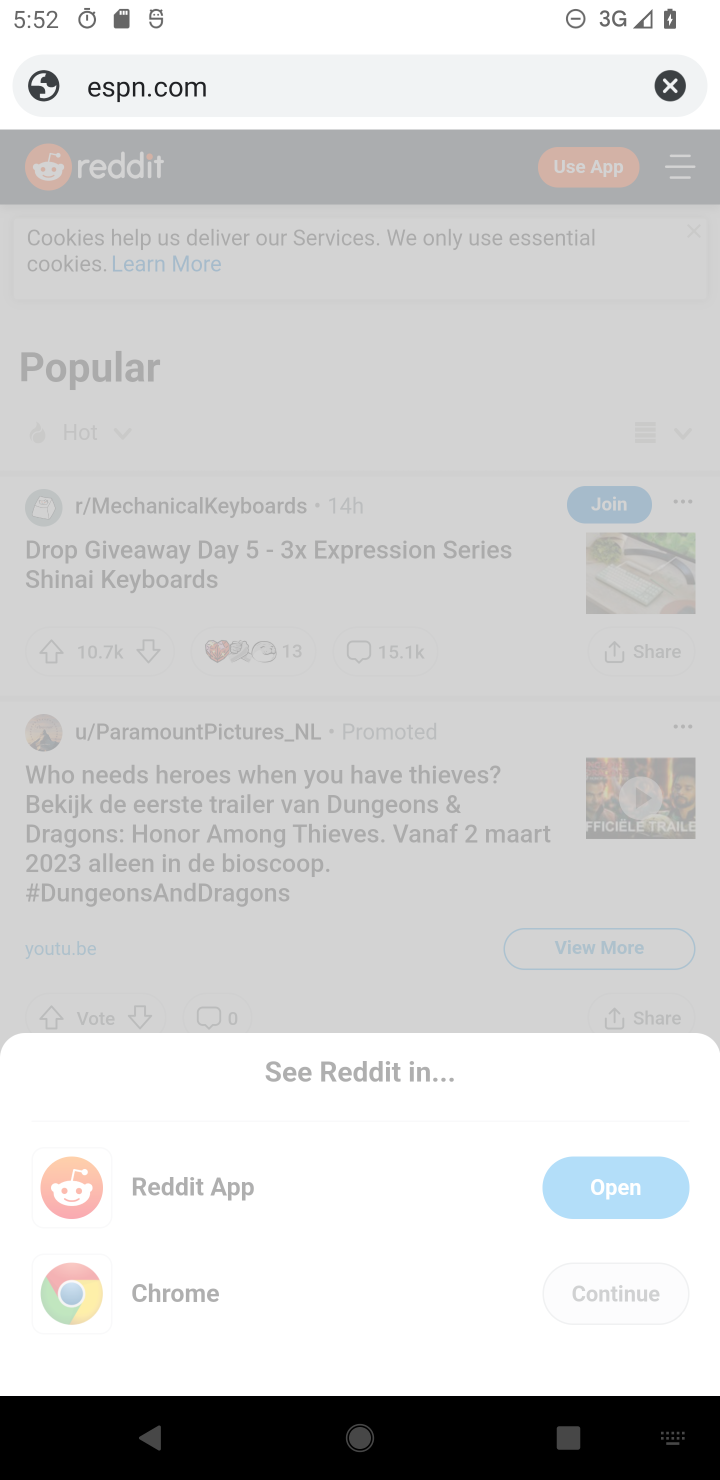
Step 31: click (132, 175)
Your task to perform on an android device: Go to ESPN.com Image 32: 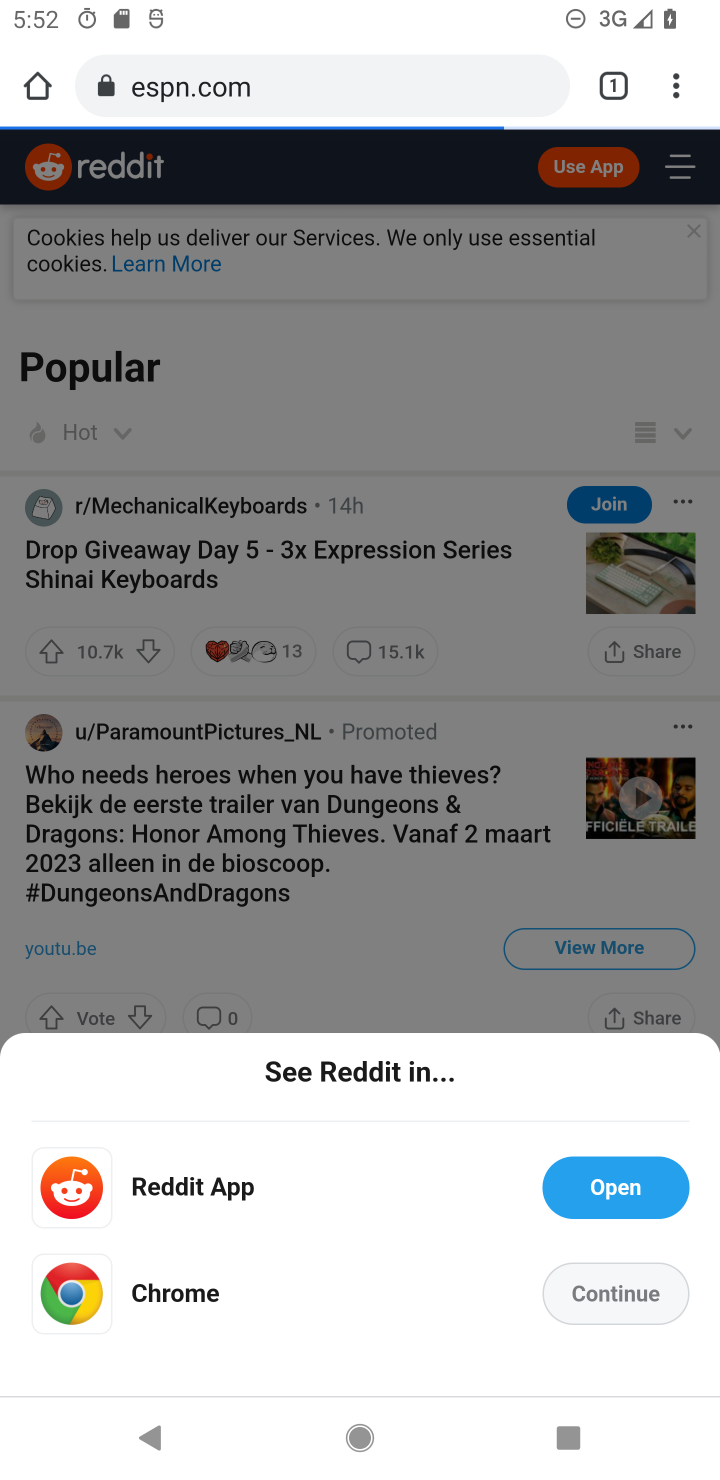
Step 32: task complete